Your task to perform on an android device: Clear the cart on amazon.com. Add "usb-c to usb-a" to the cart on amazon.com, then select checkout. Image 0: 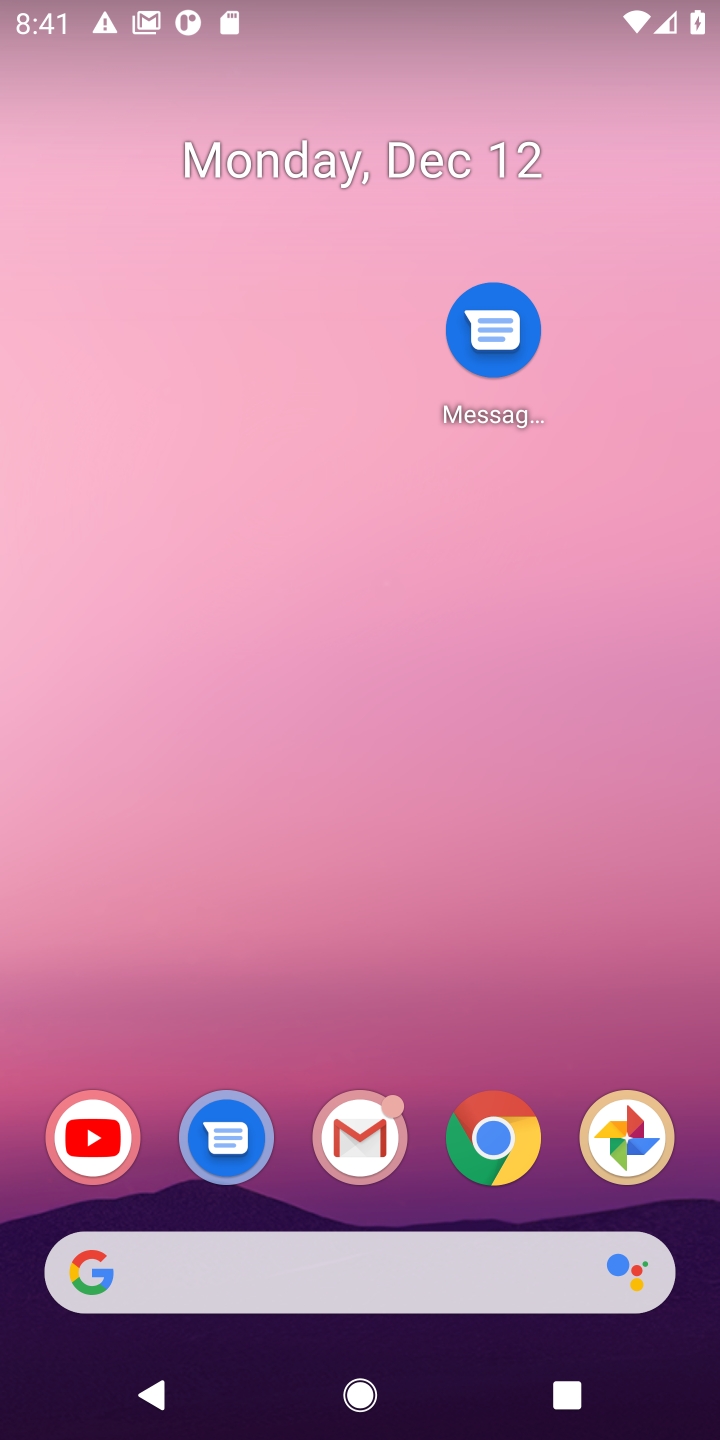
Step 0: drag from (216, 1259) to (363, 133)
Your task to perform on an android device: Clear the cart on amazon.com. Add "usb-c to usb-a" to the cart on amazon.com, then select checkout. Image 1: 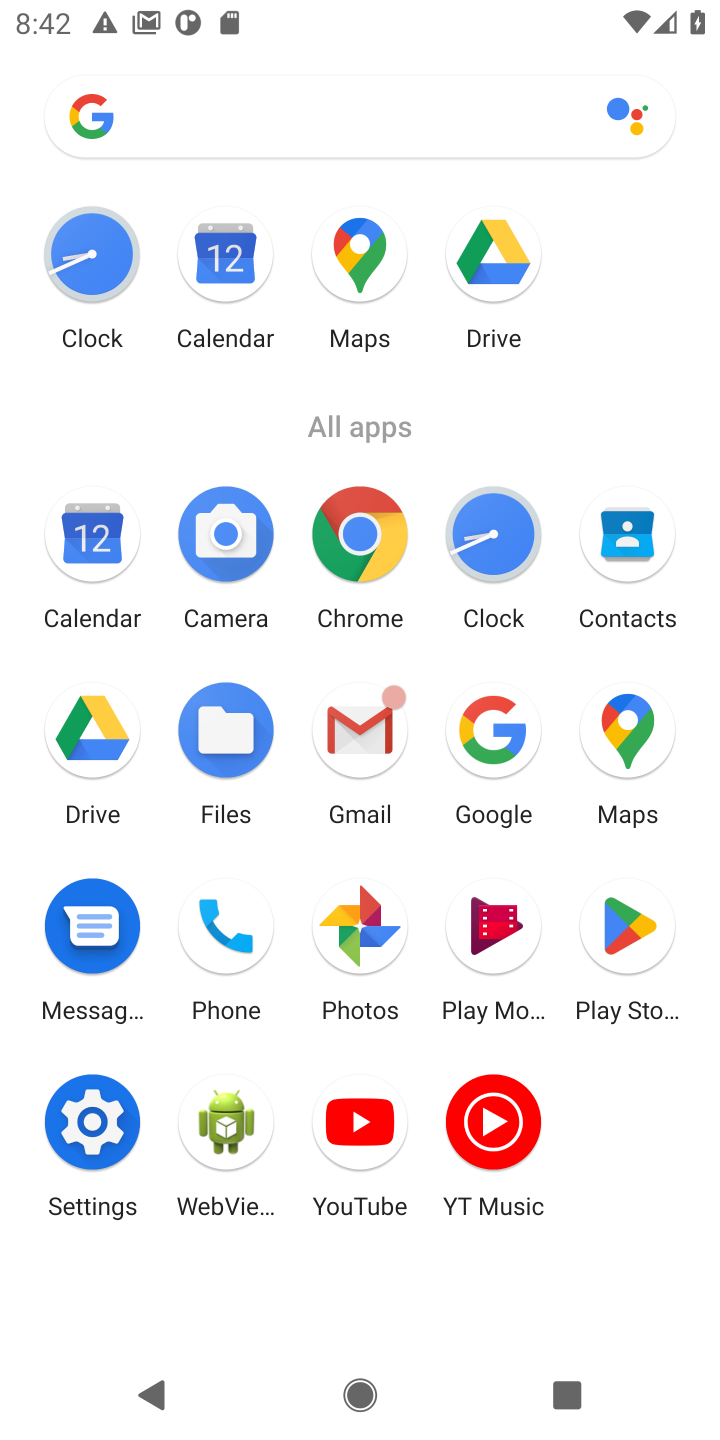
Step 1: click (508, 753)
Your task to perform on an android device: Clear the cart on amazon.com. Add "usb-c to usb-a" to the cart on amazon.com, then select checkout. Image 2: 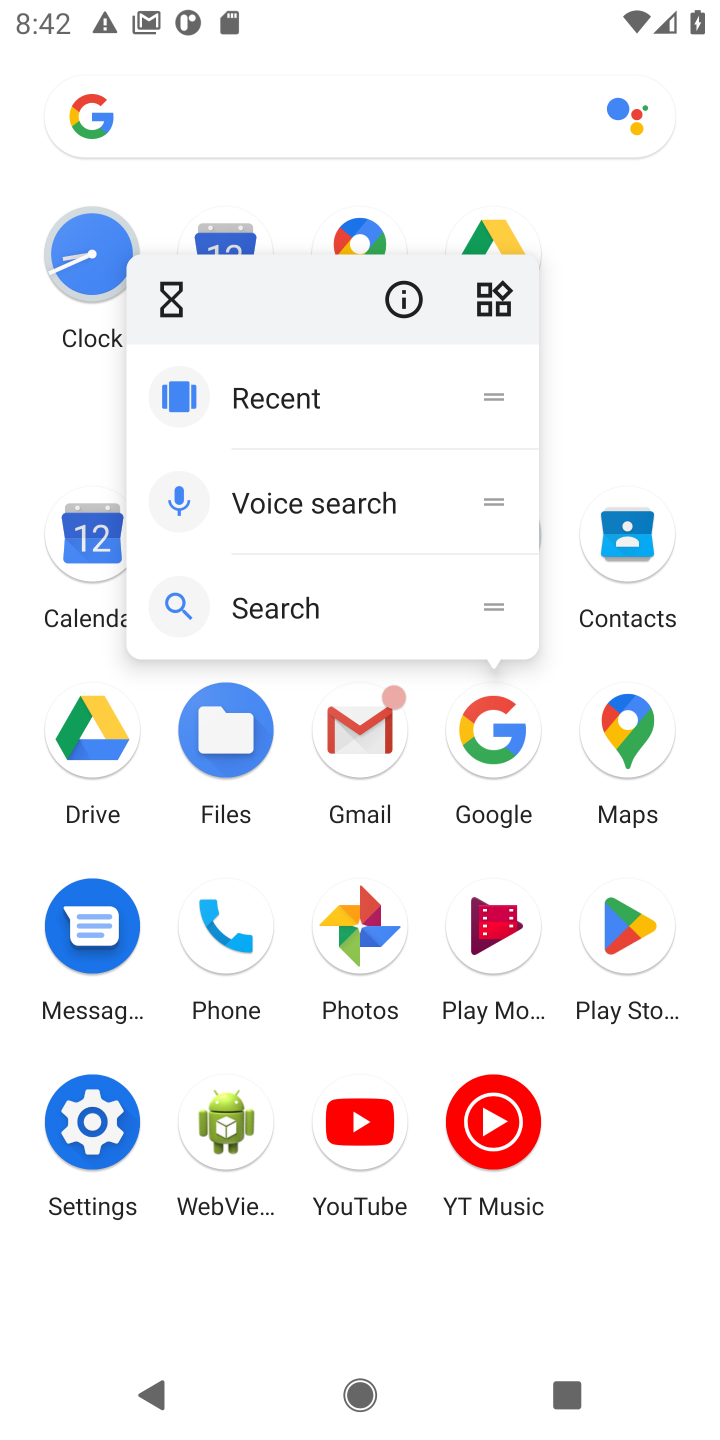
Step 2: click (499, 729)
Your task to perform on an android device: Clear the cart on amazon.com. Add "usb-c to usb-a" to the cart on amazon.com, then select checkout. Image 3: 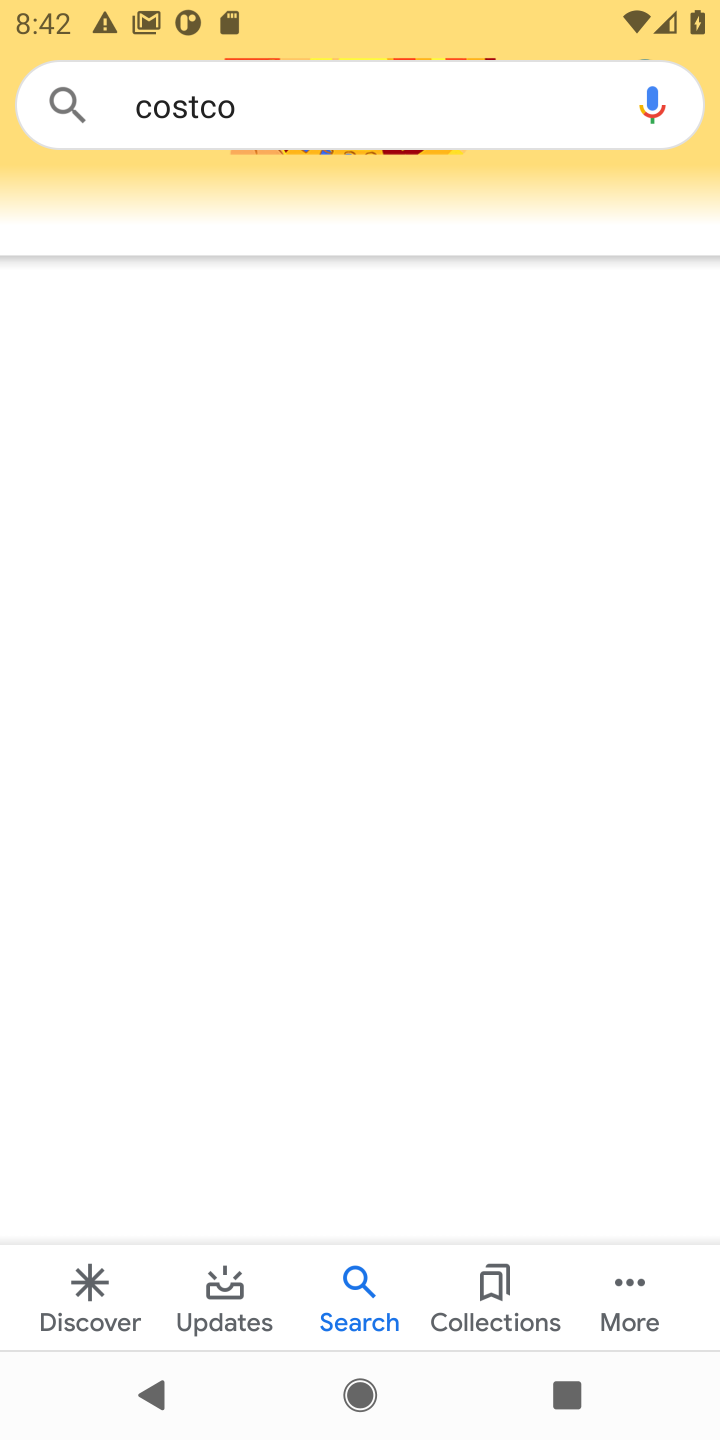
Step 3: click (265, 101)
Your task to perform on an android device: Clear the cart on amazon.com. Add "usb-c to usb-a" to the cart on amazon.com, then select checkout. Image 4: 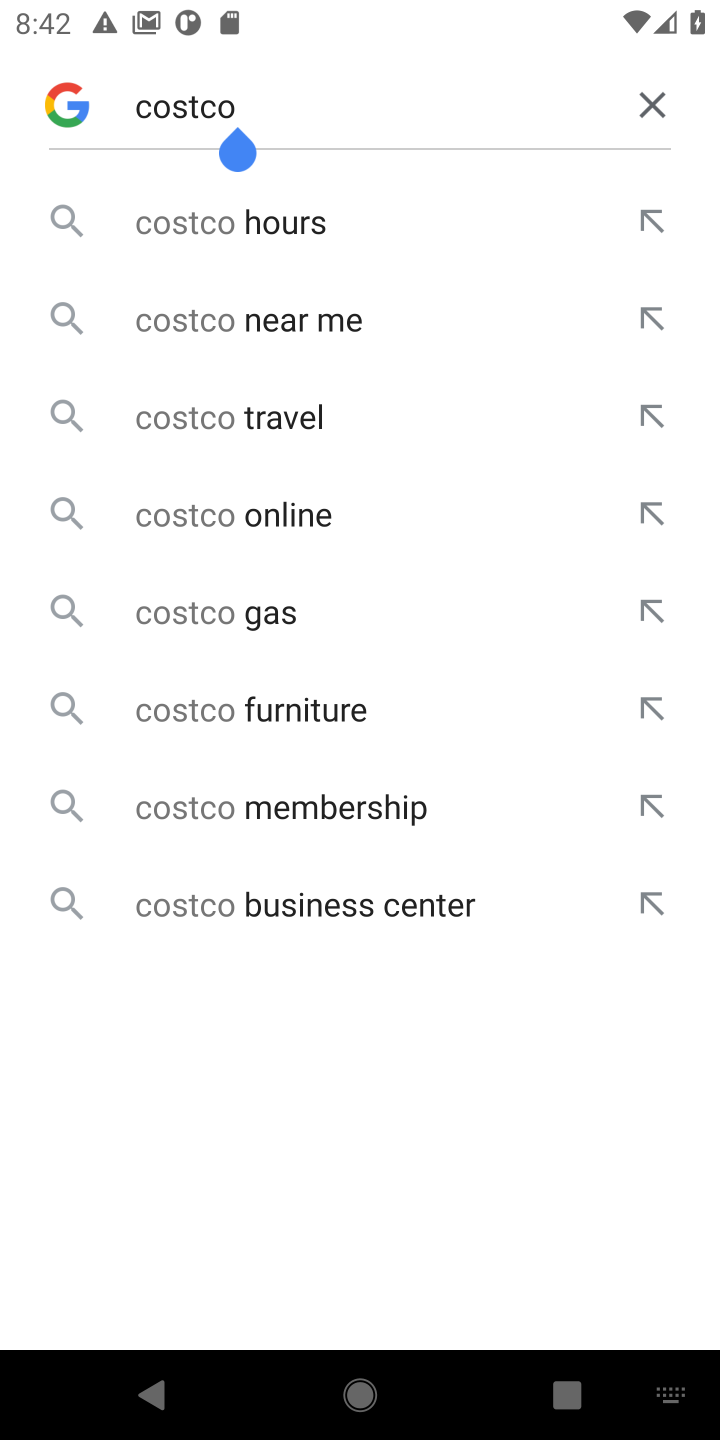
Step 4: click (654, 96)
Your task to perform on an android device: Clear the cart on amazon.com. Add "usb-c to usb-a" to the cart on amazon.com, then select checkout. Image 5: 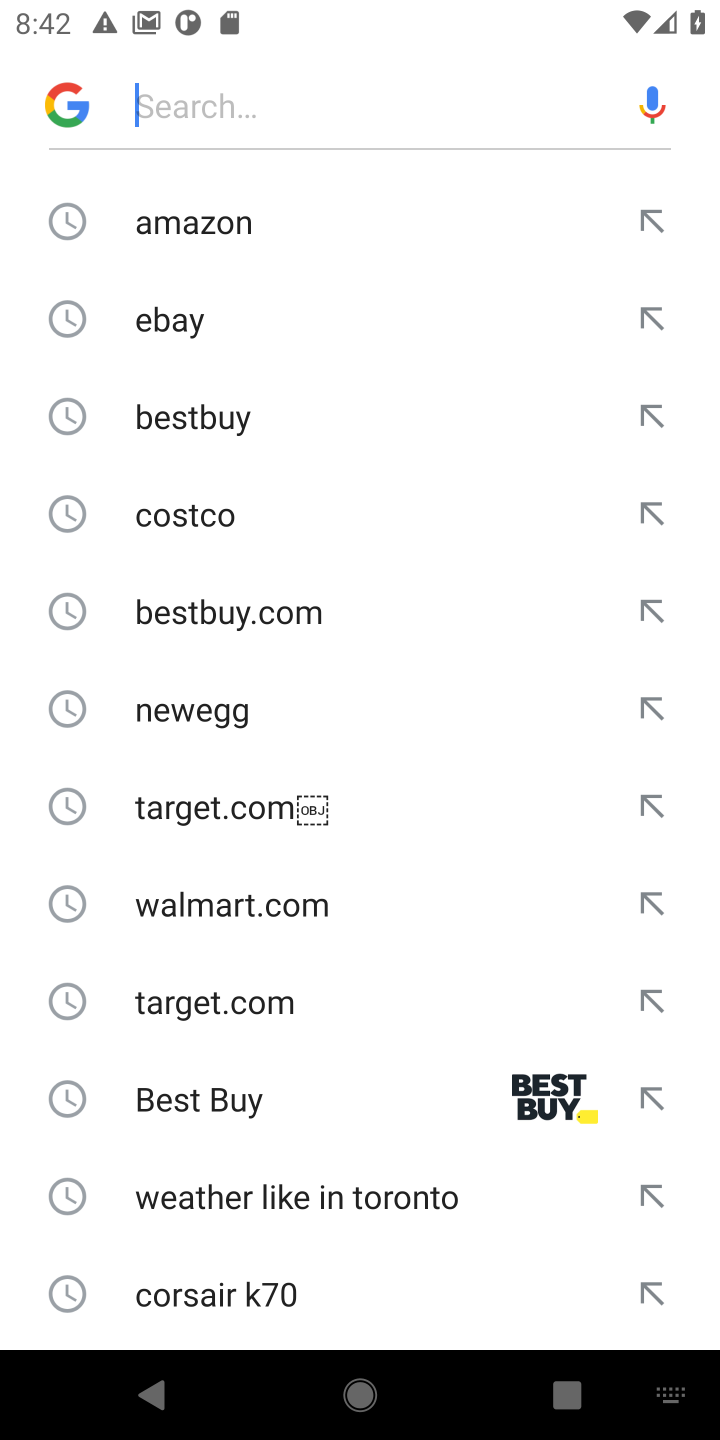
Step 5: click (173, 210)
Your task to perform on an android device: Clear the cart on amazon.com. Add "usb-c to usb-a" to the cart on amazon.com, then select checkout. Image 6: 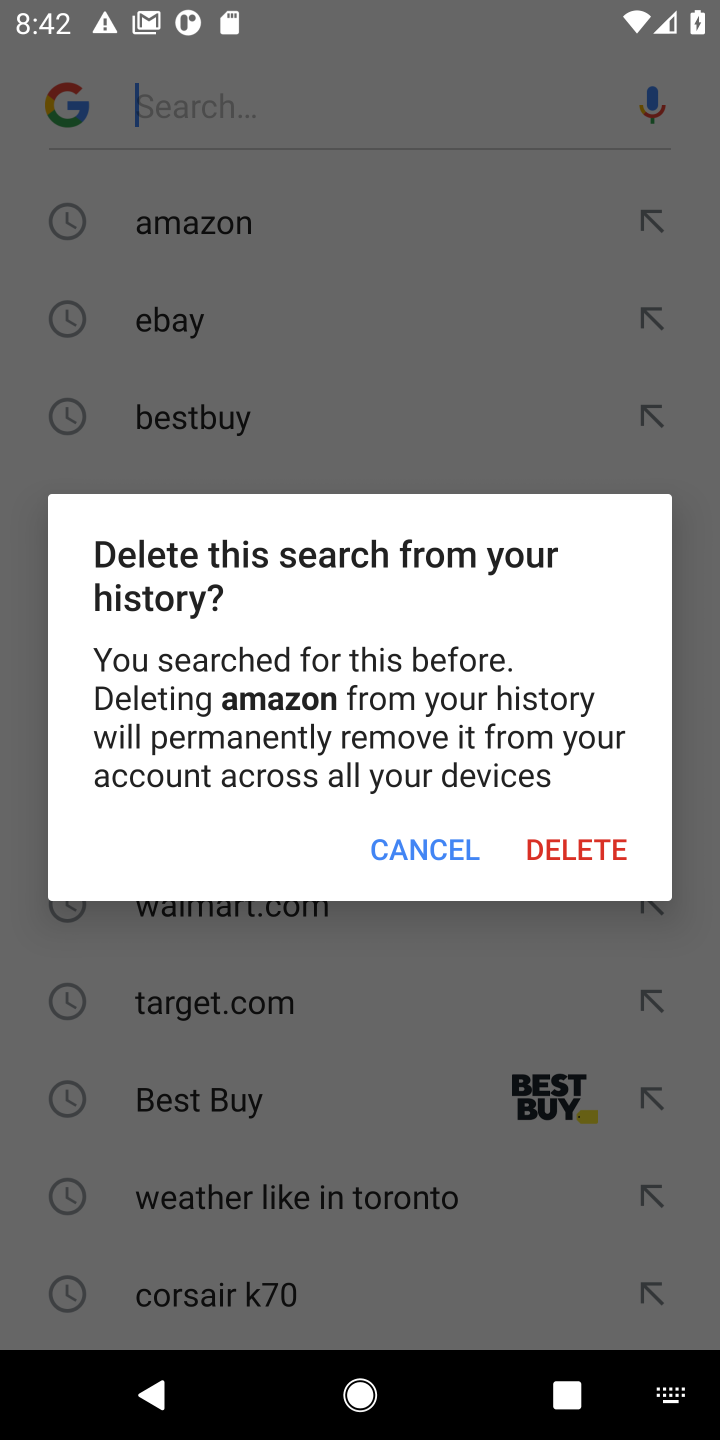
Step 6: click (445, 839)
Your task to perform on an android device: Clear the cart on amazon.com. Add "usb-c to usb-a" to the cart on amazon.com, then select checkout. Image 7: 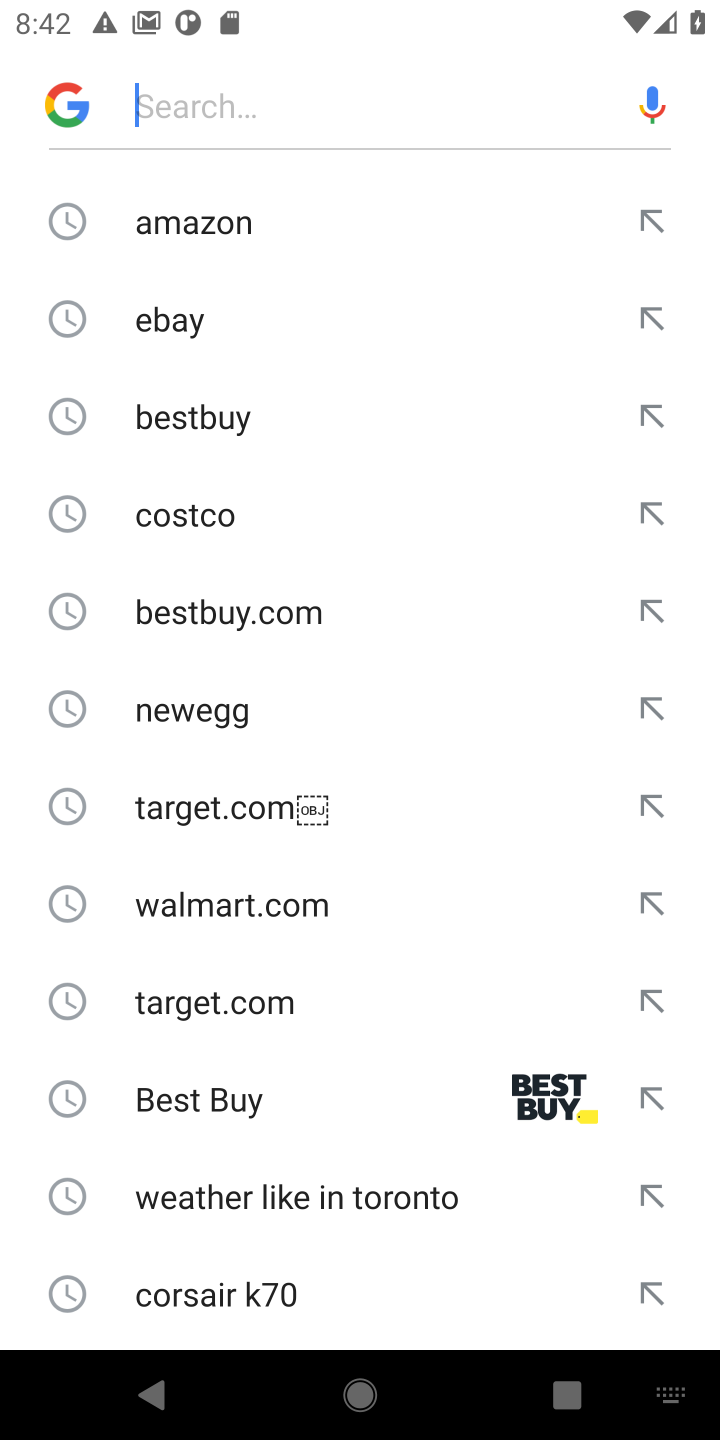
Step 7: click (225, 217)
Your task to perform on an android device: Clear the cart on amazon.com. Add "usb-c to usb-a" to the cart on amazon.com, then select checkout. Image 8: 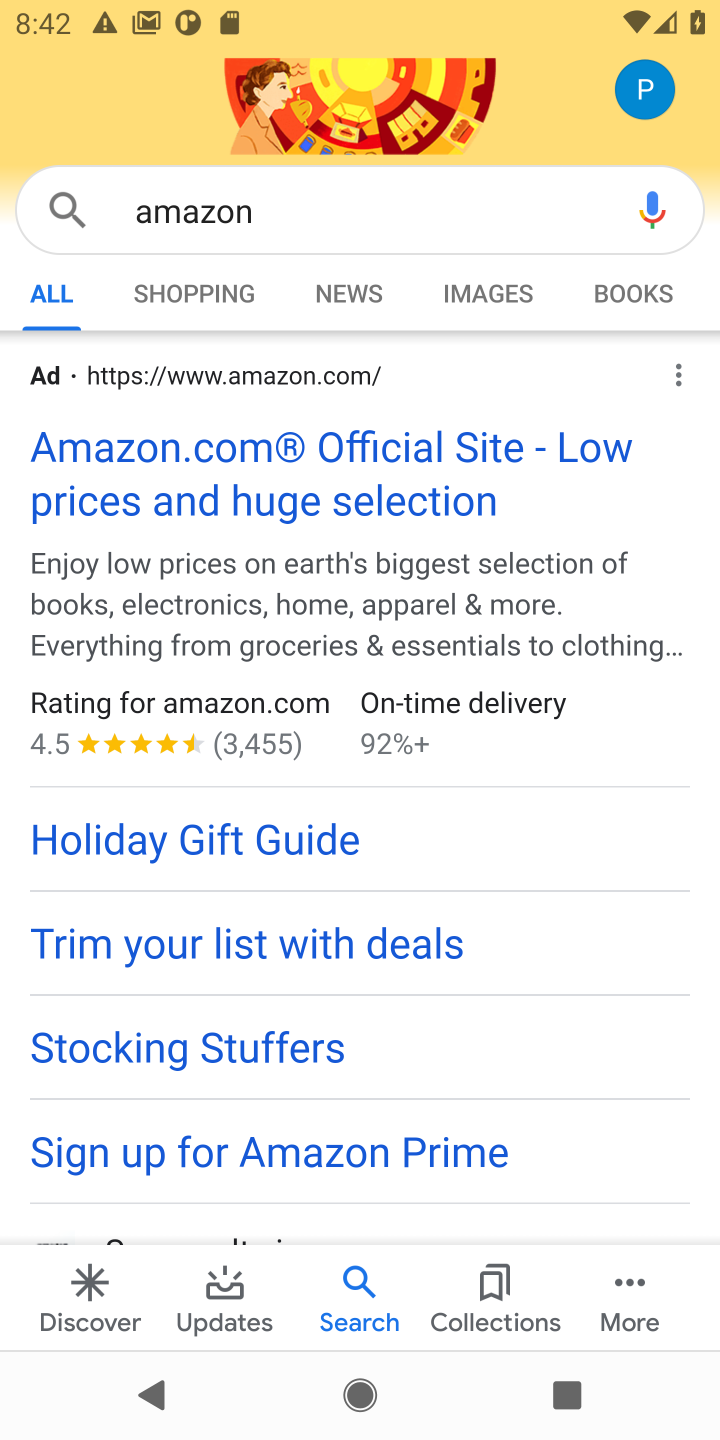
Step 8: click (240, 478)
Your task to perform on an android device: Clear the cart on amazon.com. Add "usb-c to usb-a" to the cart on amazon.com, then select checkout. Image 9: 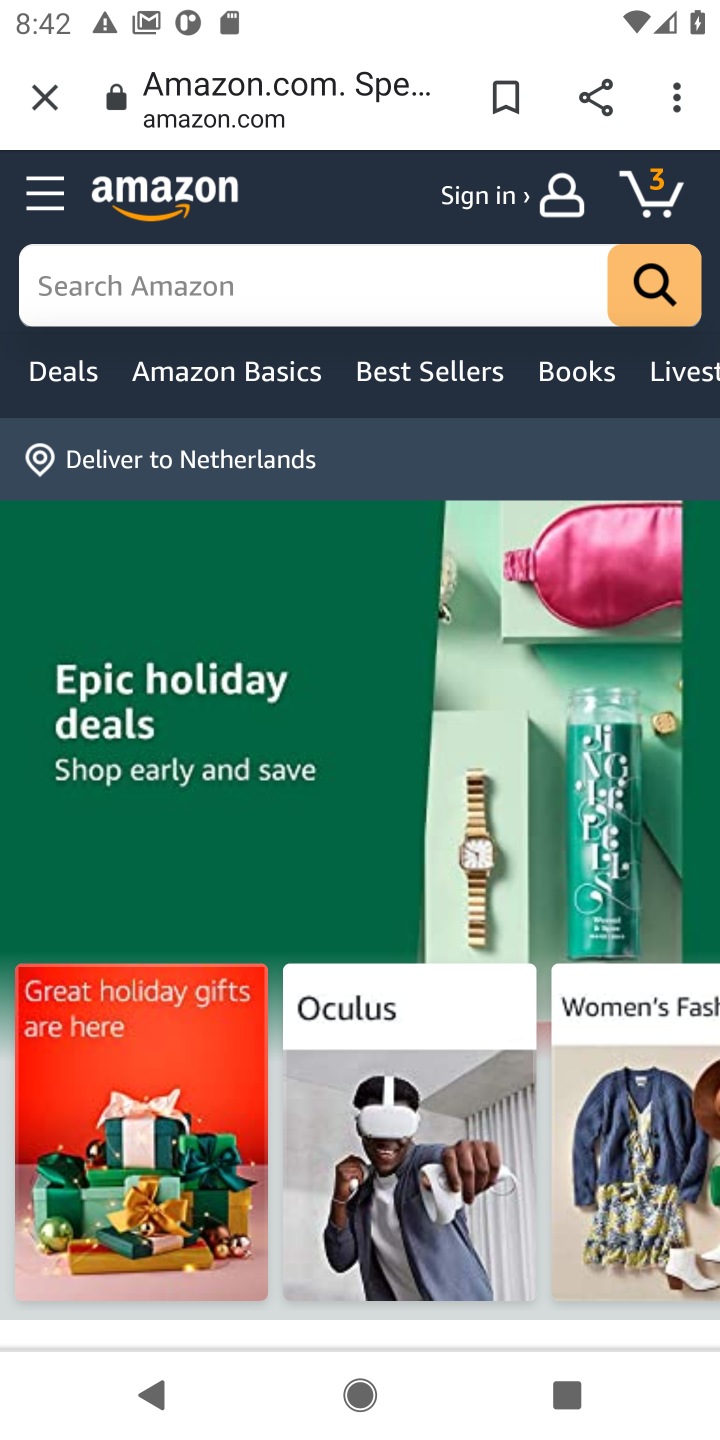
Step 9: click (179, 290)
Your task to perform on an android device: Clear the cart on amazon.com. Add "usb-c to usb-a" to the cart on amazon.com, then select checkout. Image 10: 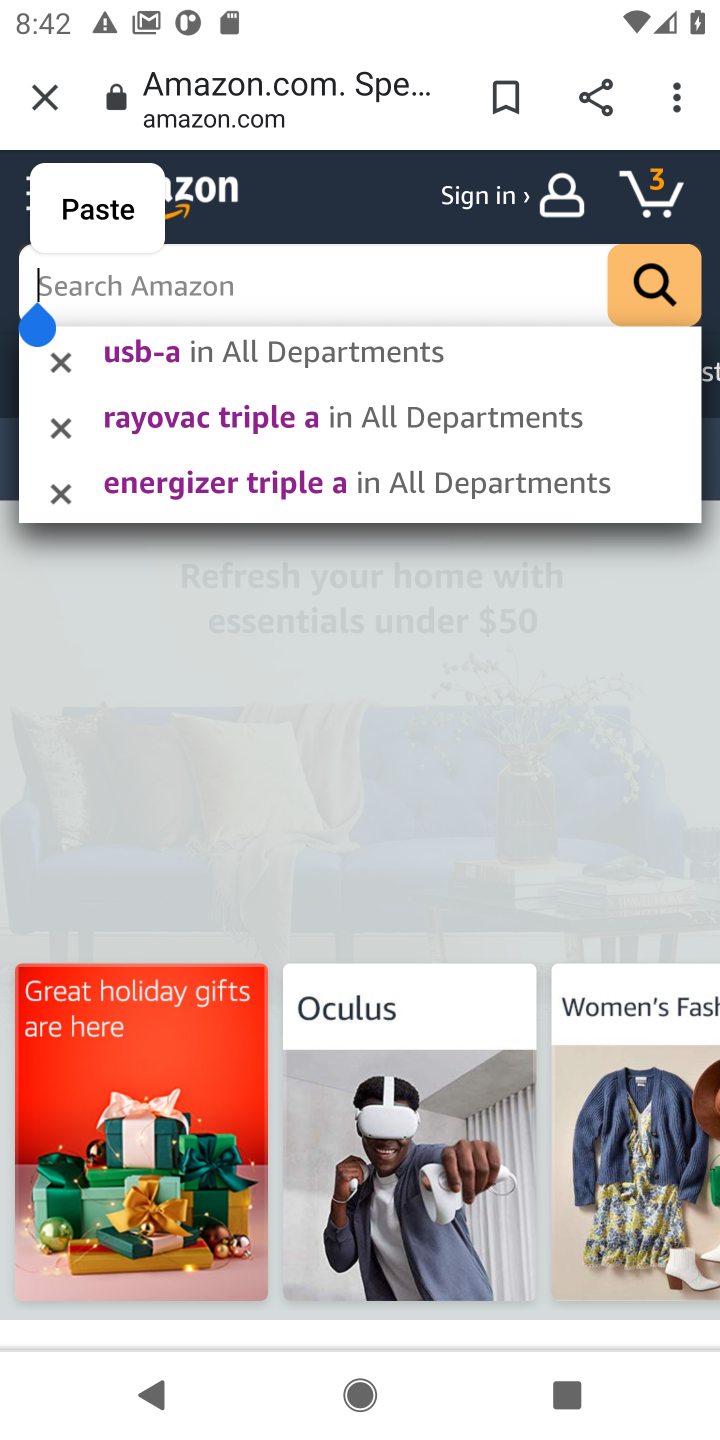
Step 10: click (678, 178)
Your task to perform on an android device: Clear the cart on amazon.com. Add "usb-c to usb-a" to the cart on amazon.com, then select checkout. Image 11: 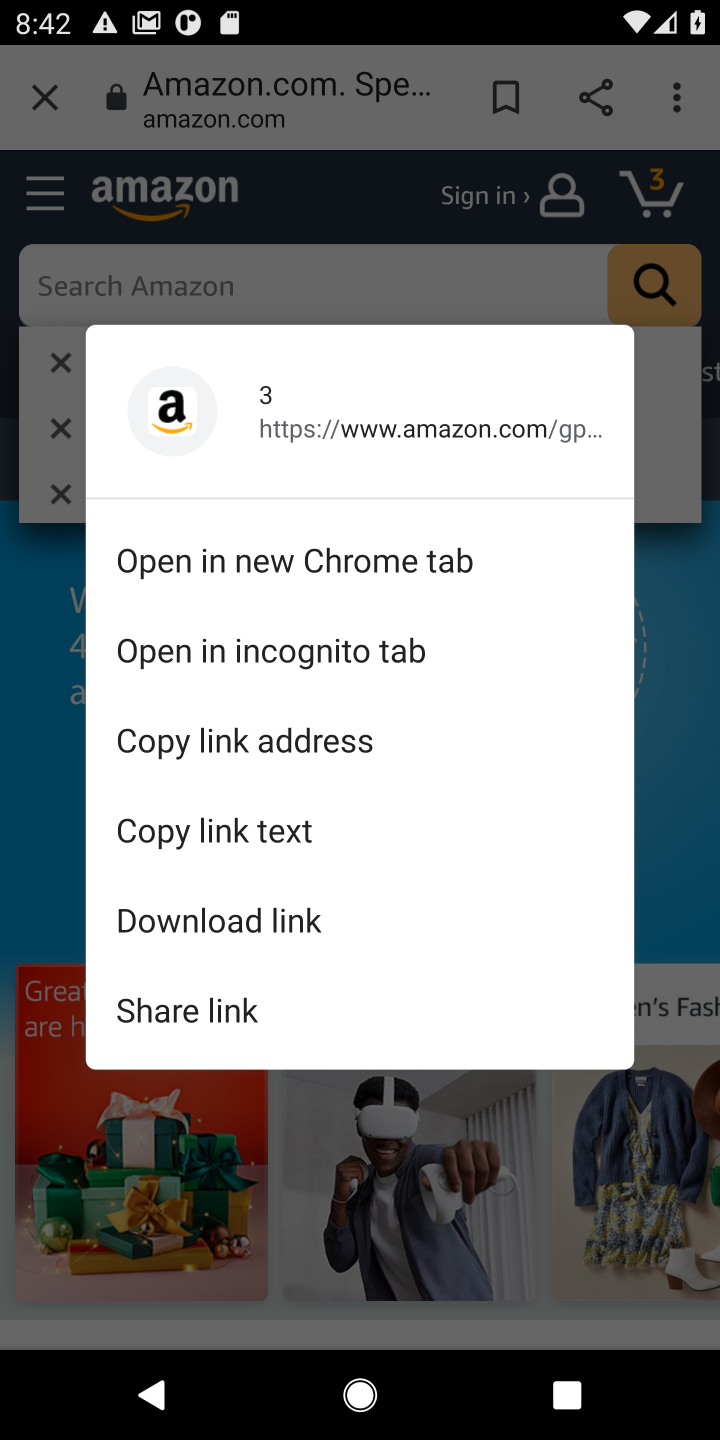
Step 11: click (35, 625)
Your task to perform on an android device: Clear the cart on amazon.com. Add "usb-c to usb-a" to the cart on amazon.com, then select checkout. Image 12: 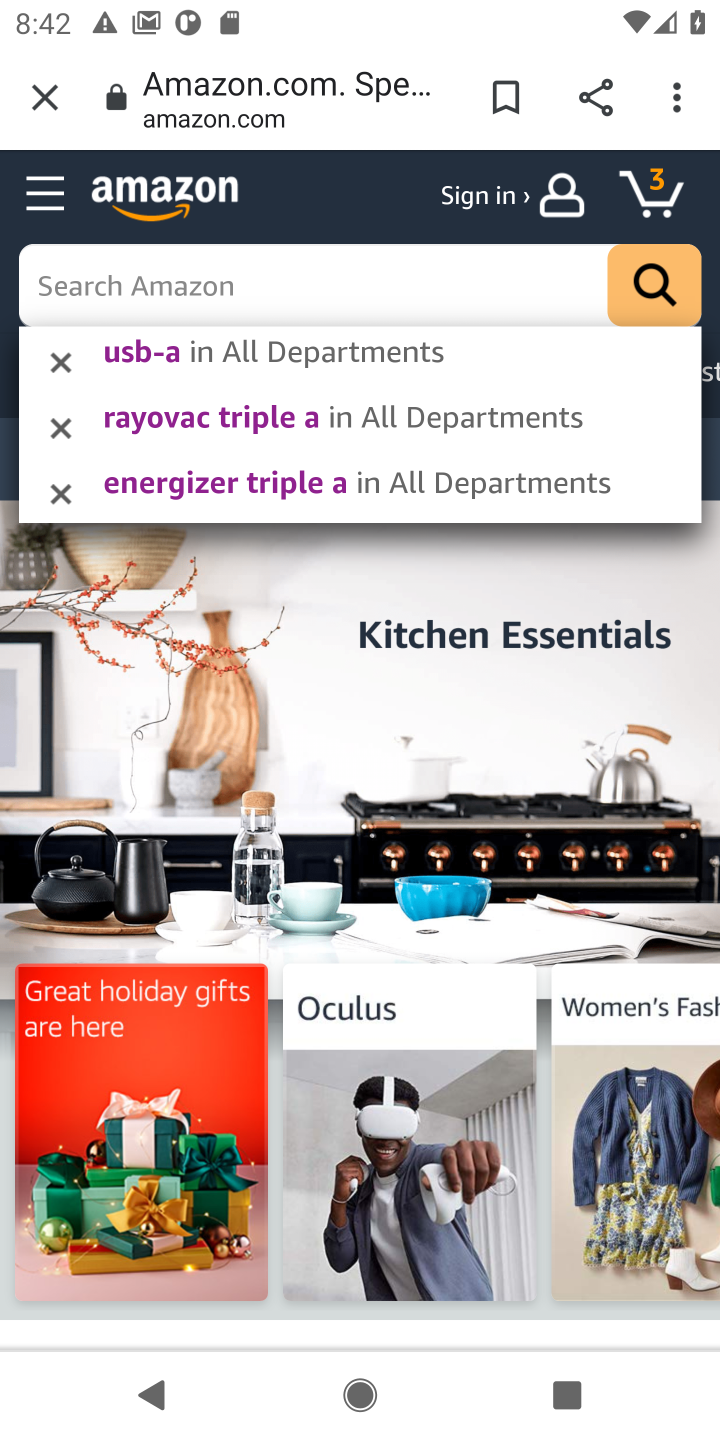
Step 12: click (667, 188)
Your task to perform on an android device: Clear the cart on amazon.com. Add "usb-c to usb-a" to the cart on amazon.com, then select checkout. Image 13: 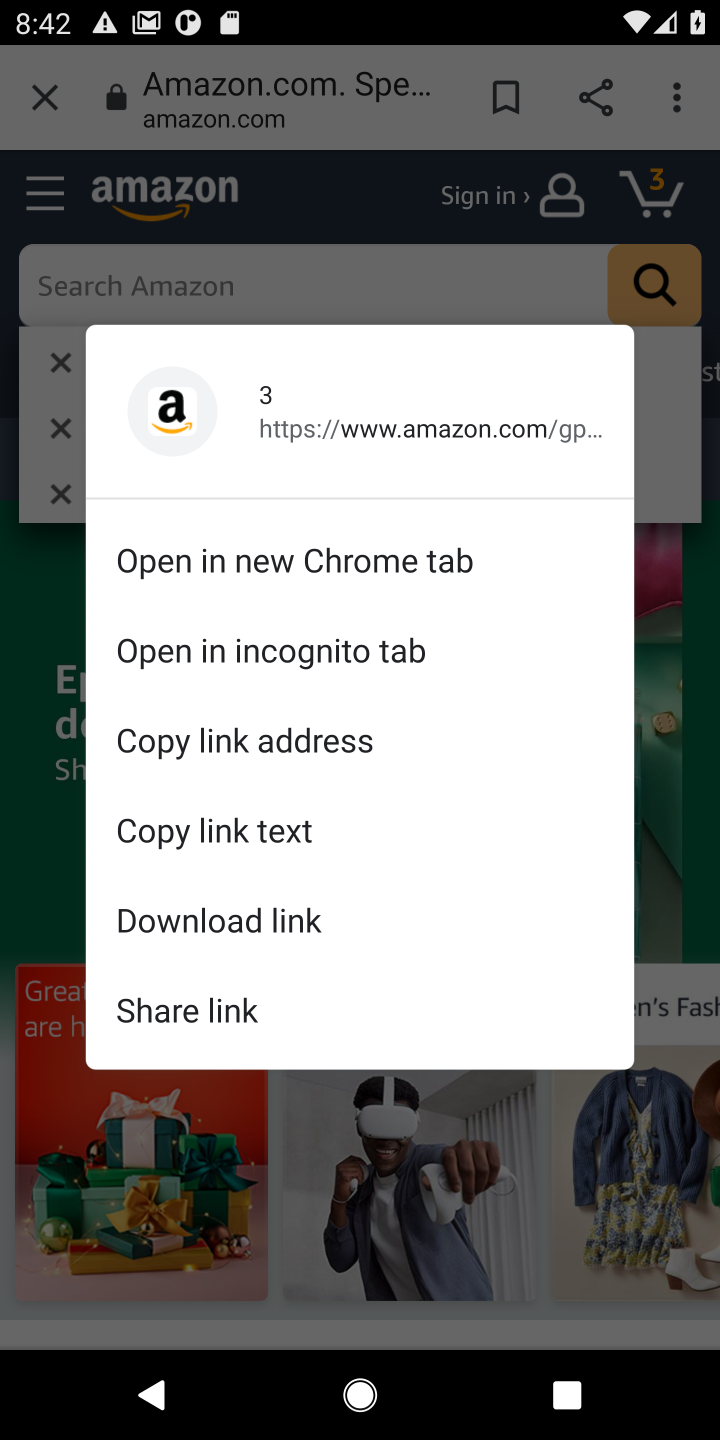
Step 13: click (20, 631)
Your task to perform on an android device: Clear the cart on amazon.com. Add "usb-c to usb-a" to the cart on amazon.com, then select checkout. Image 14: 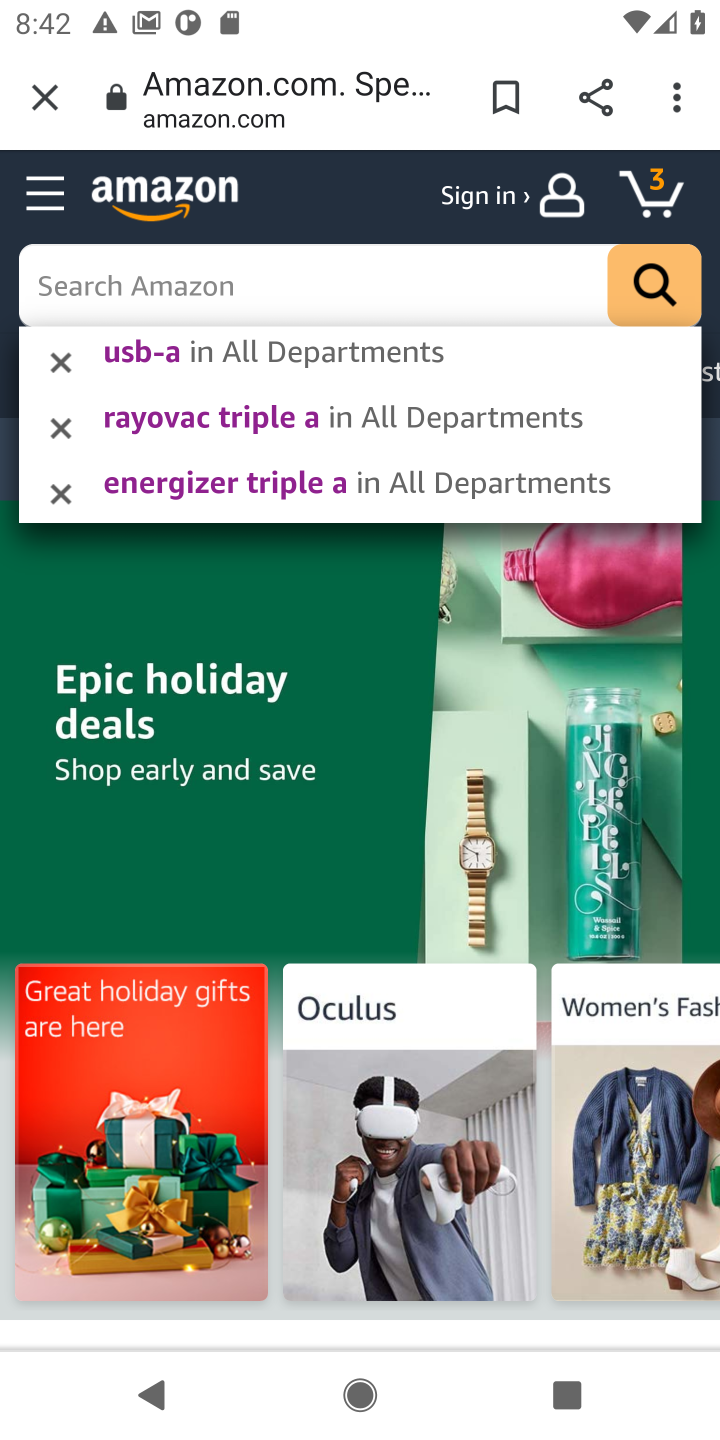
Step 14: click (640, 193)
Your task to perform on an android device: Clear the cart on amazon.com. Add "usb-c to usb-a" to the cart on amazon.com, then select checkout. Image 15: 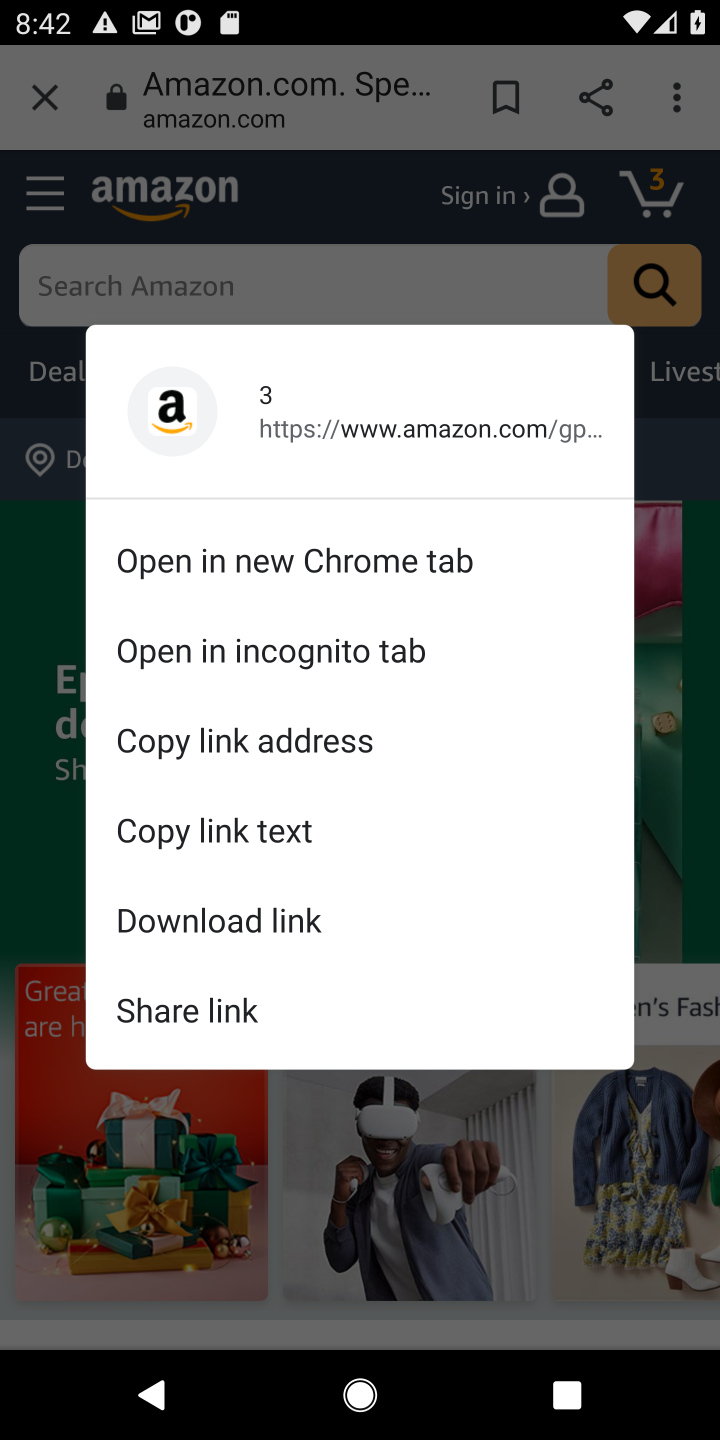
Step 15: click (698, 644)
Your task to perform on an android device: Clear the cart on amazon.com. Add "usb-c to usb-a" to the cart on amazon.com, then select checkout. Image 16: 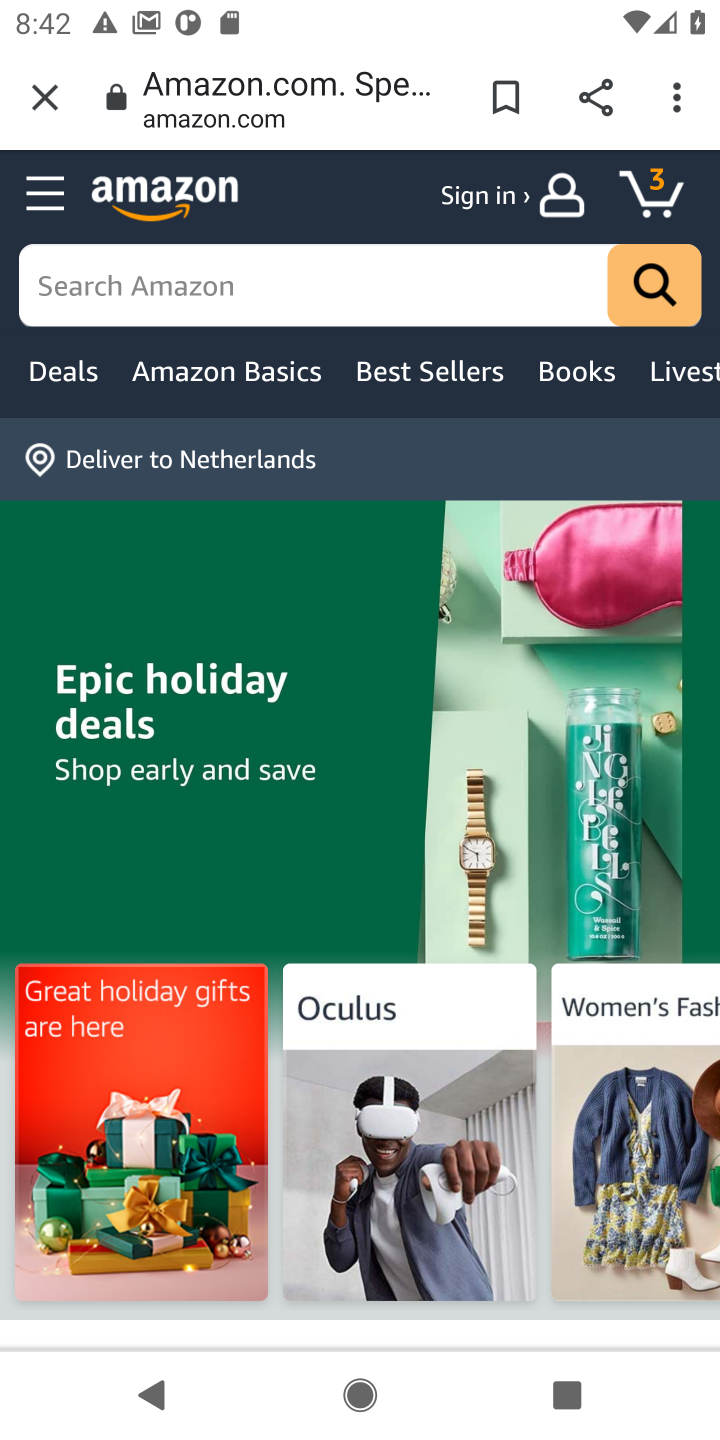
Step 16: click (662, 191)
Your task to perform on an android device: Clear the cart on amazon.com. Add "usb-c to usb-a" to the cart on amazon.com, then select checkout. Image 17: 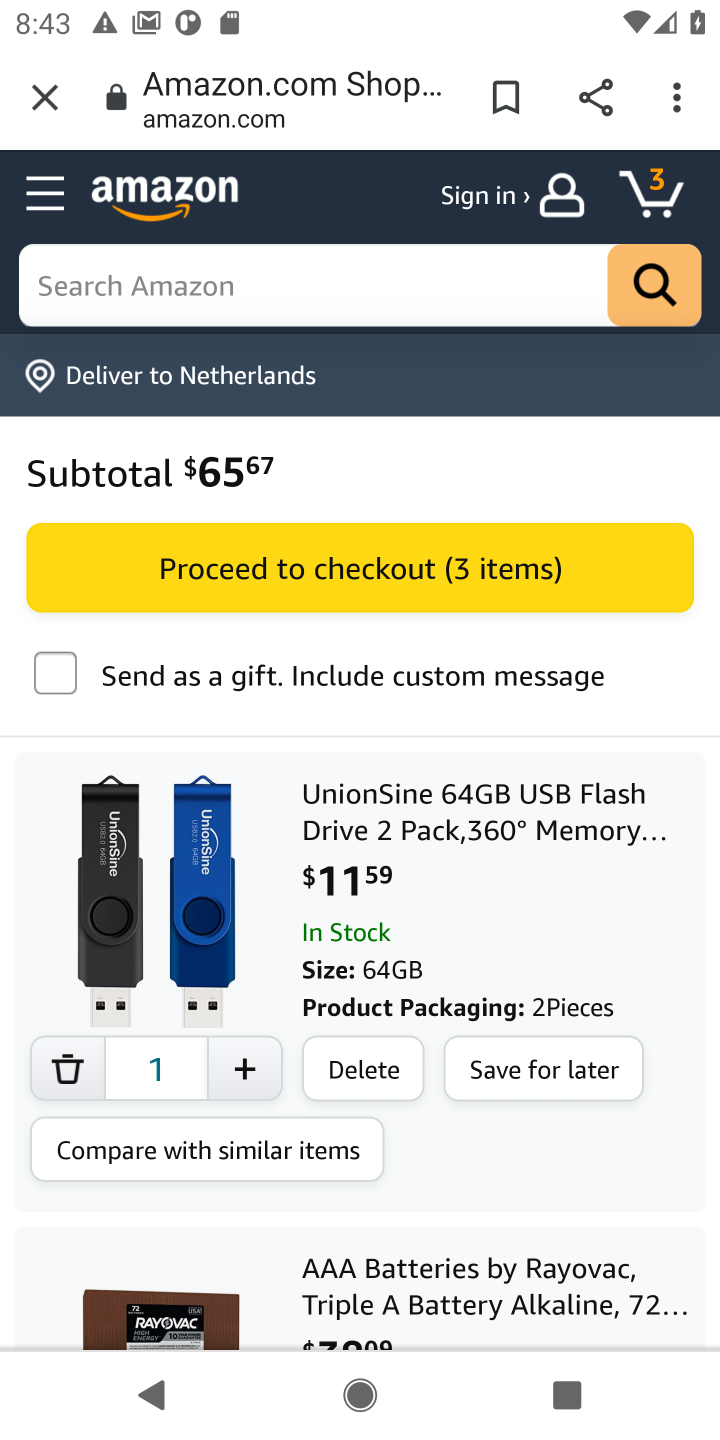
Step 17: click (367, 1066)
Your task to perform on an android device: Clear the cart on amazon.com. Add "usb-c to usb-a" to the cart on amazon.com, then select checkout. Image 18: 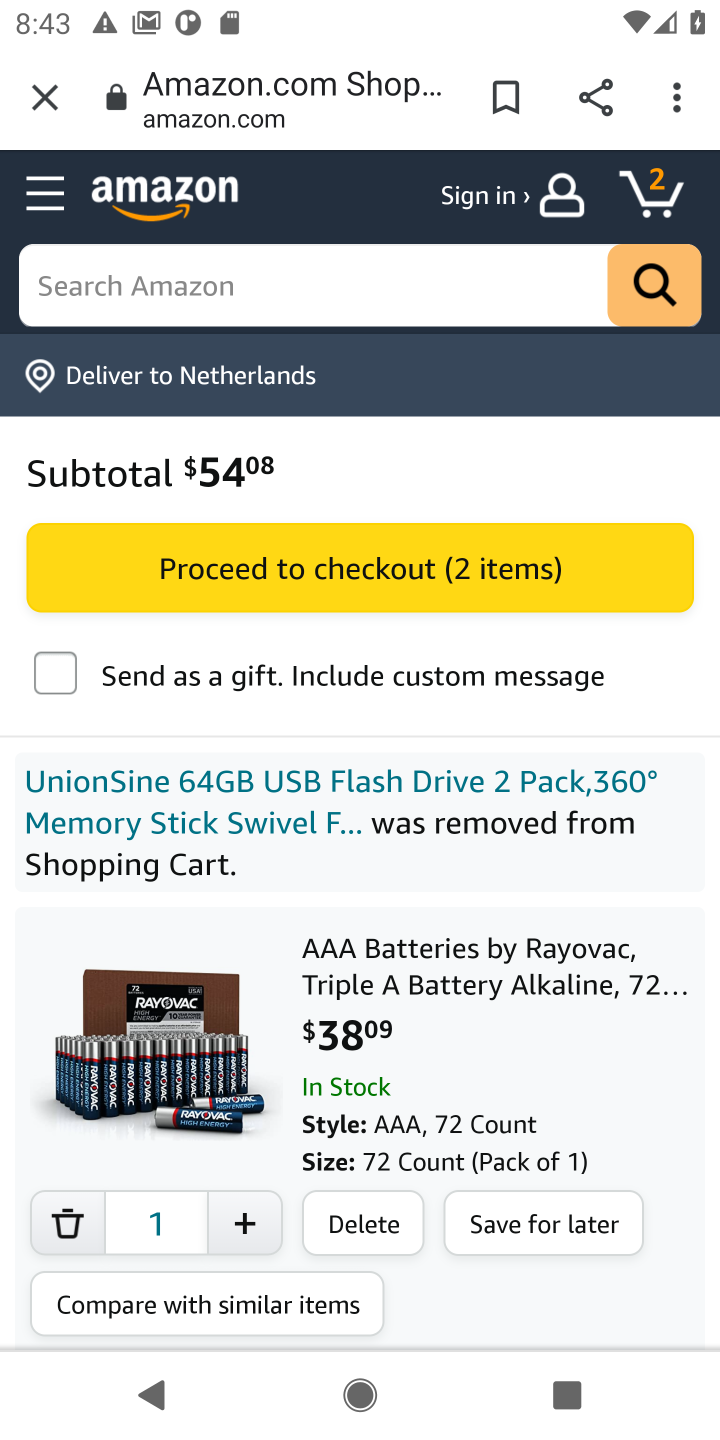
Step 18: click (367, 1221)
Your task to perform on an android device: Clear the cart on amazon.com. Add "usb-c to usb-a" to the cart on amazon.com, then select checkout. Image 19: 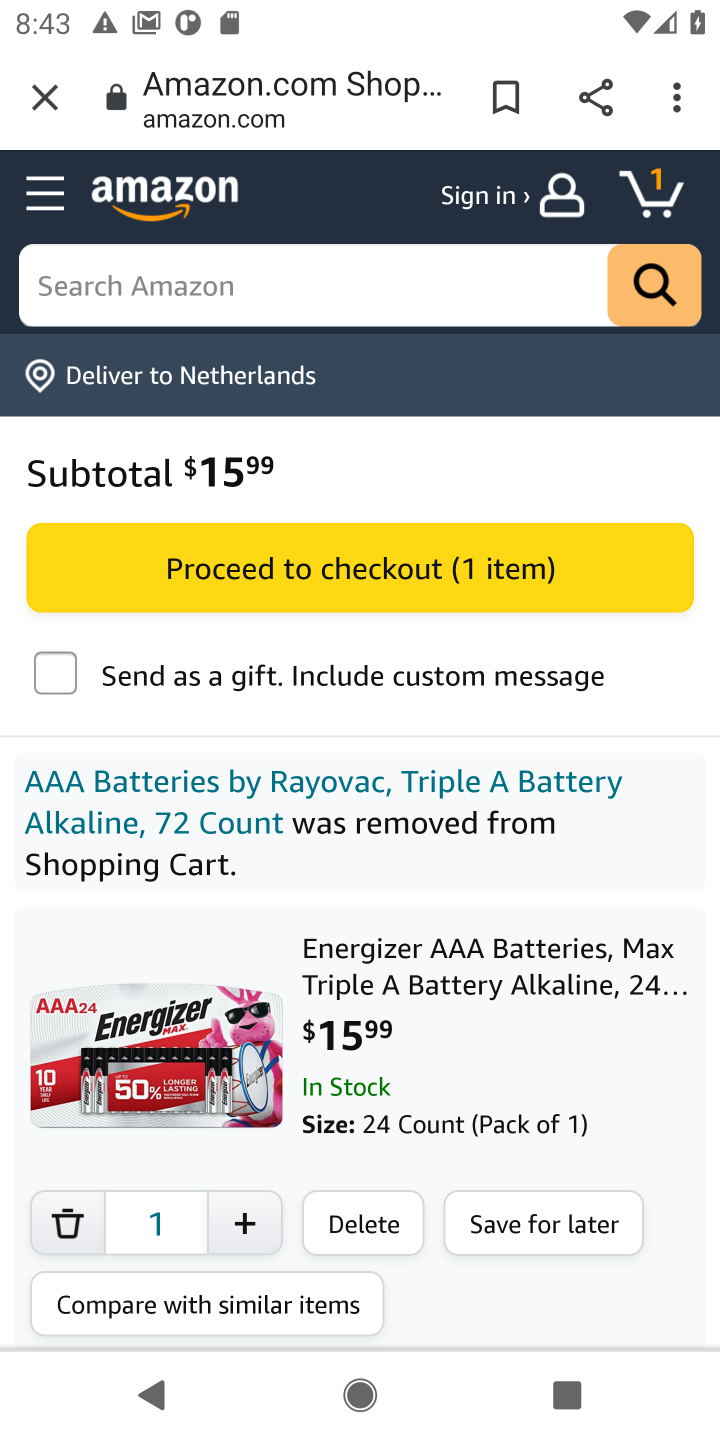
Step 19: click (365, 1230)
Your task to perform on an android device: Clear the cart on amazon.com. Add "usb-c to usb-a" to the cart on amazon.com, then select checkout. Image 20: 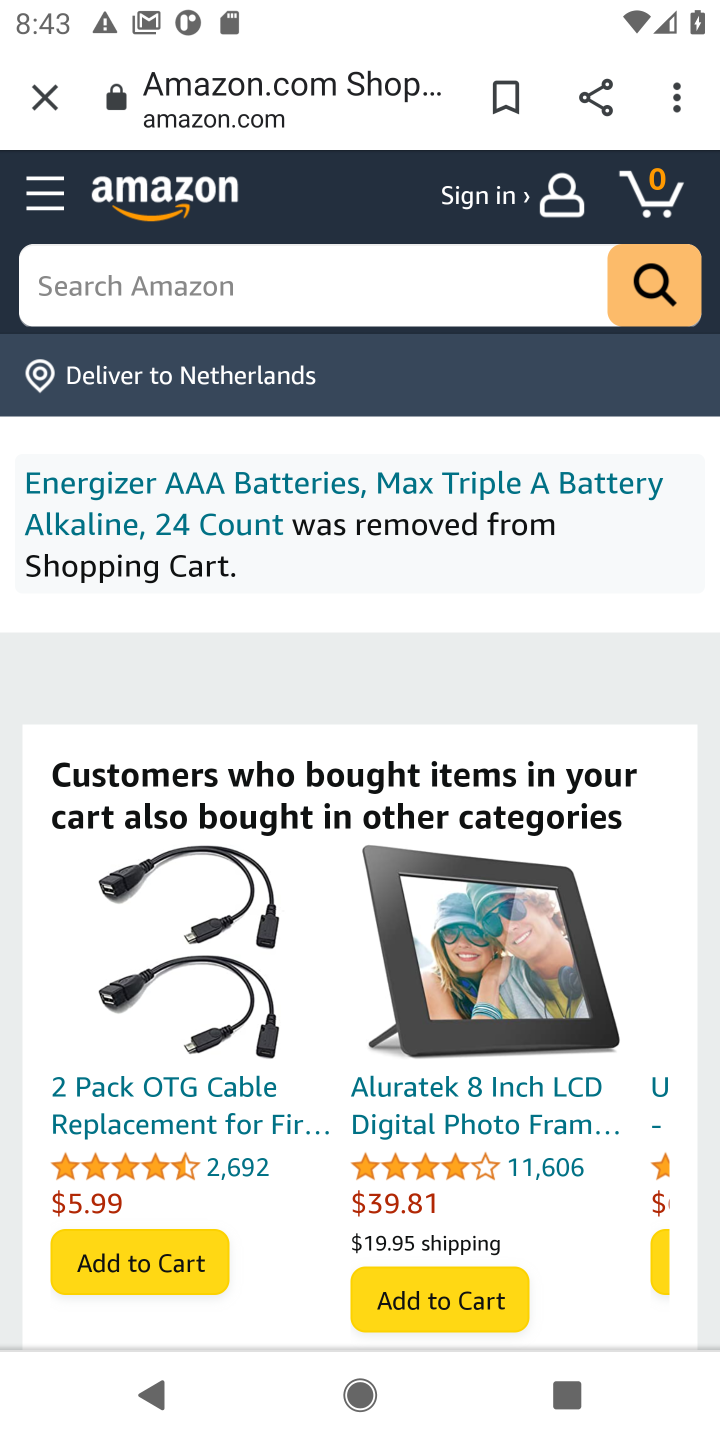
Step 20: click (250, 277)
Your task to perform on an android device: Clear the cart on amazon.com. Add "usb-c to usb-a" to the cart on amazon.com, then select checkout. Image 21: 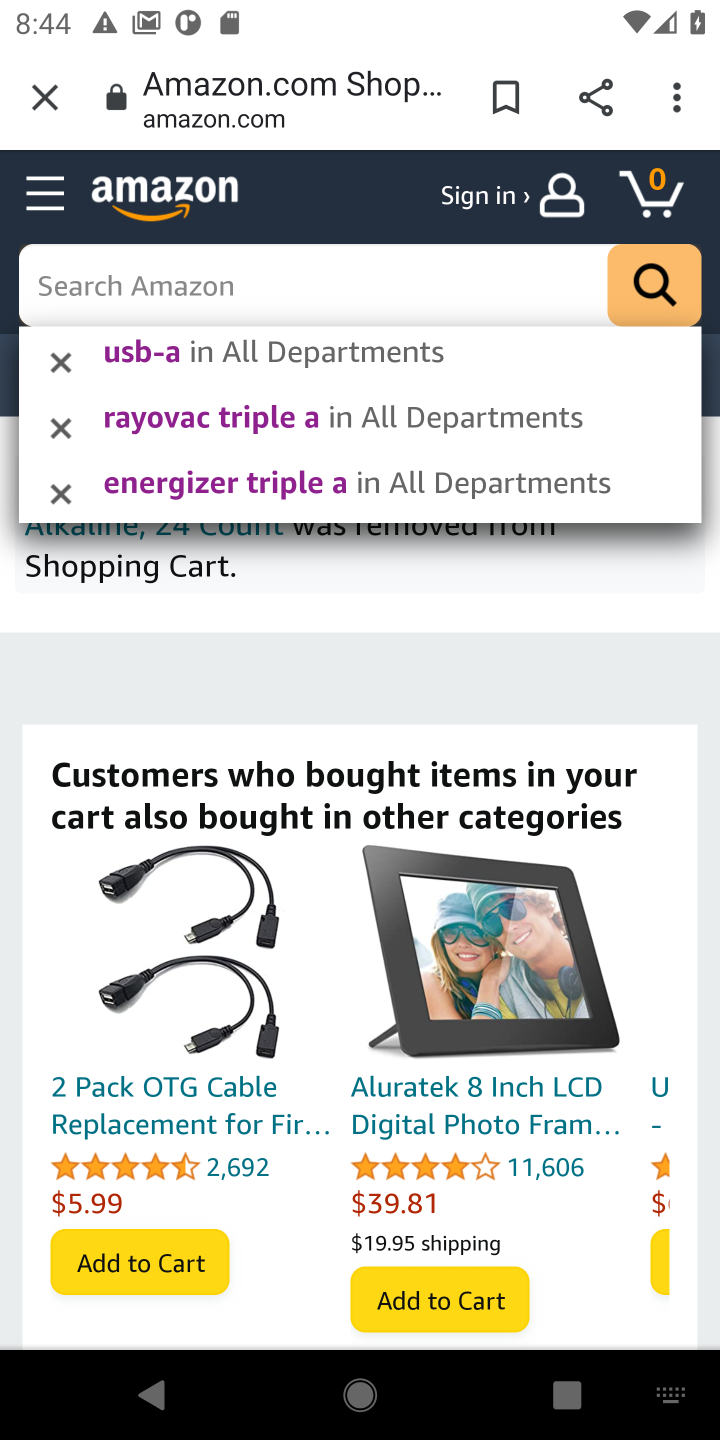
Step 21: type "usb-c to usb-a"
Your task to perform on an android device: Clear the cart on amazon.com. Add "usb-c to usb-a" to the cart on amazon.com, then select checkout. Image 22: 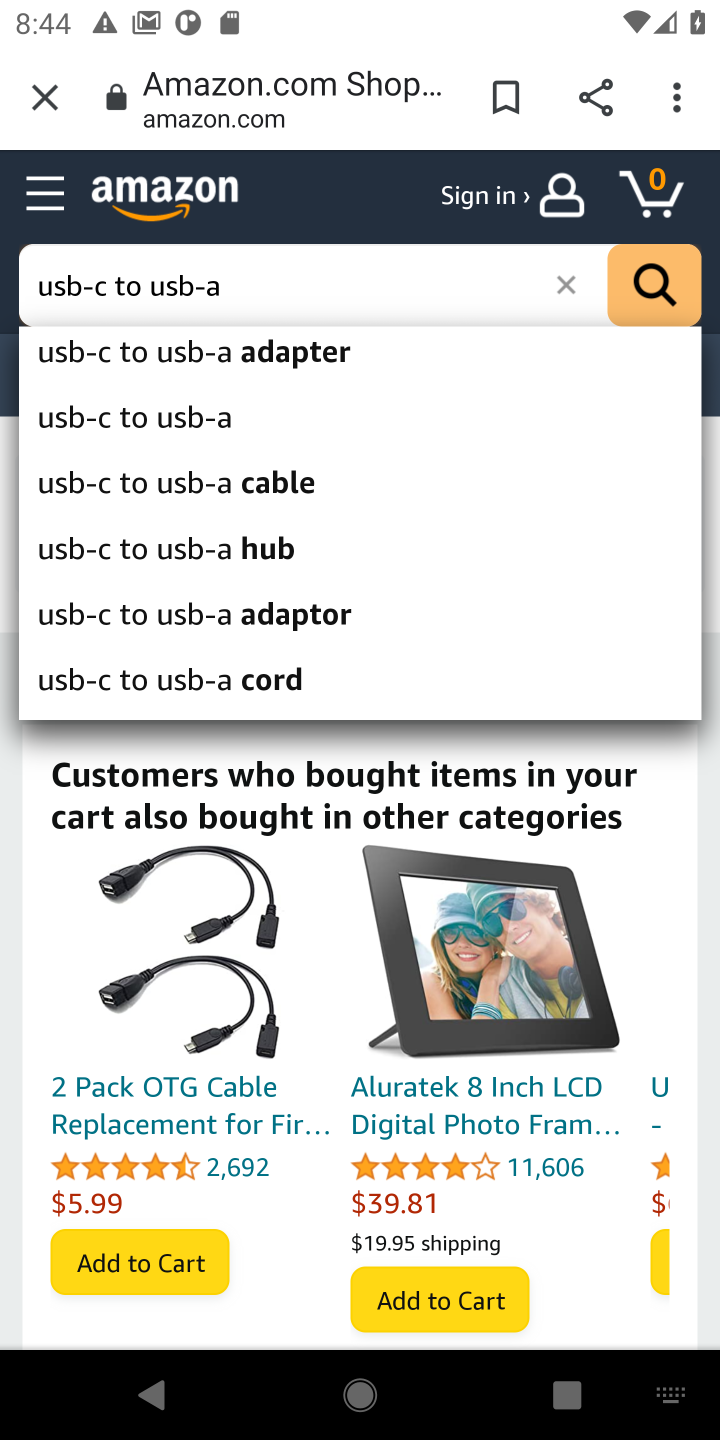
Step 22: click (189, 341)
Your task to perform on an android device: Clear the cart on amazon.com. Add "usb-c to usb-a" to the cart on amazon.com, then select checkout. Image 23: 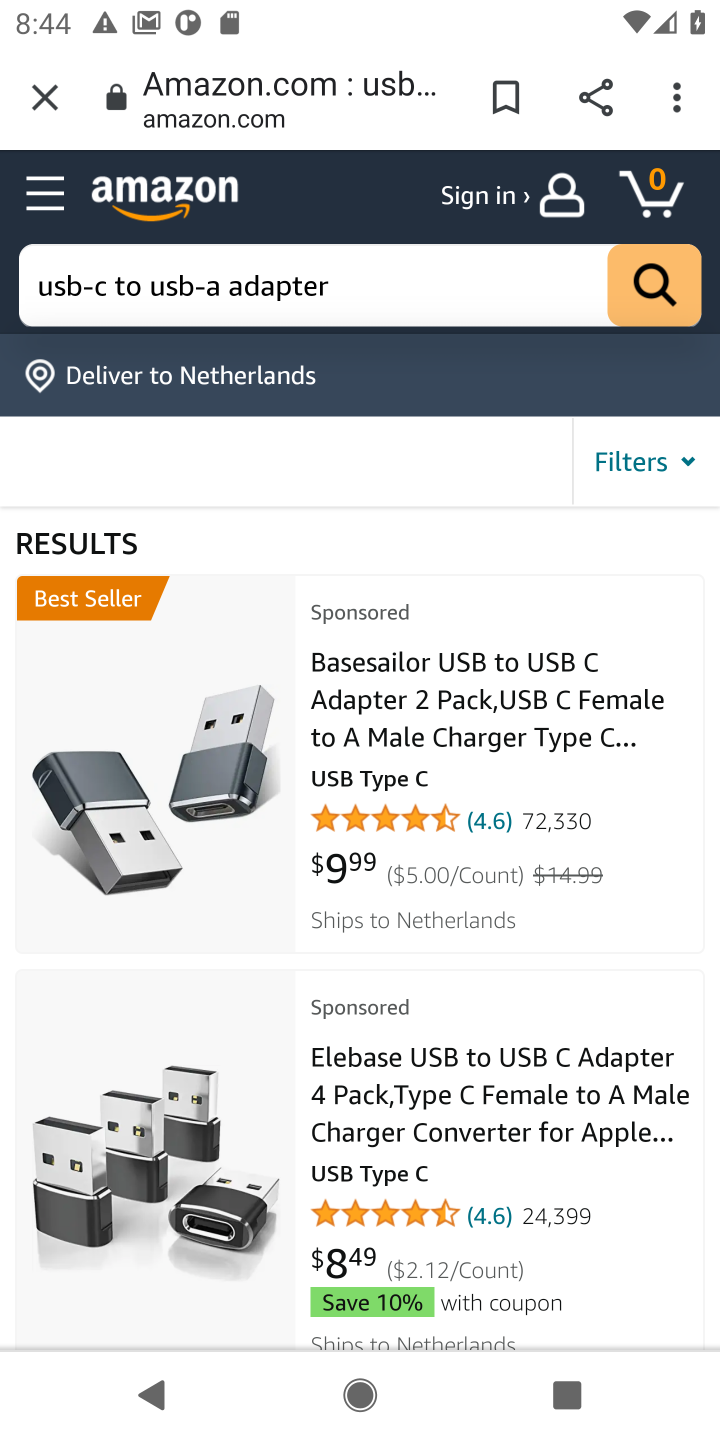
Step 23: drag from (467, 945) to (451, 510)
Your task to perform on an android device: Clear the cart on amazon.com. Add "usb-c to usb-a" to the cart on amazon.com, then select checkout. Image 24: 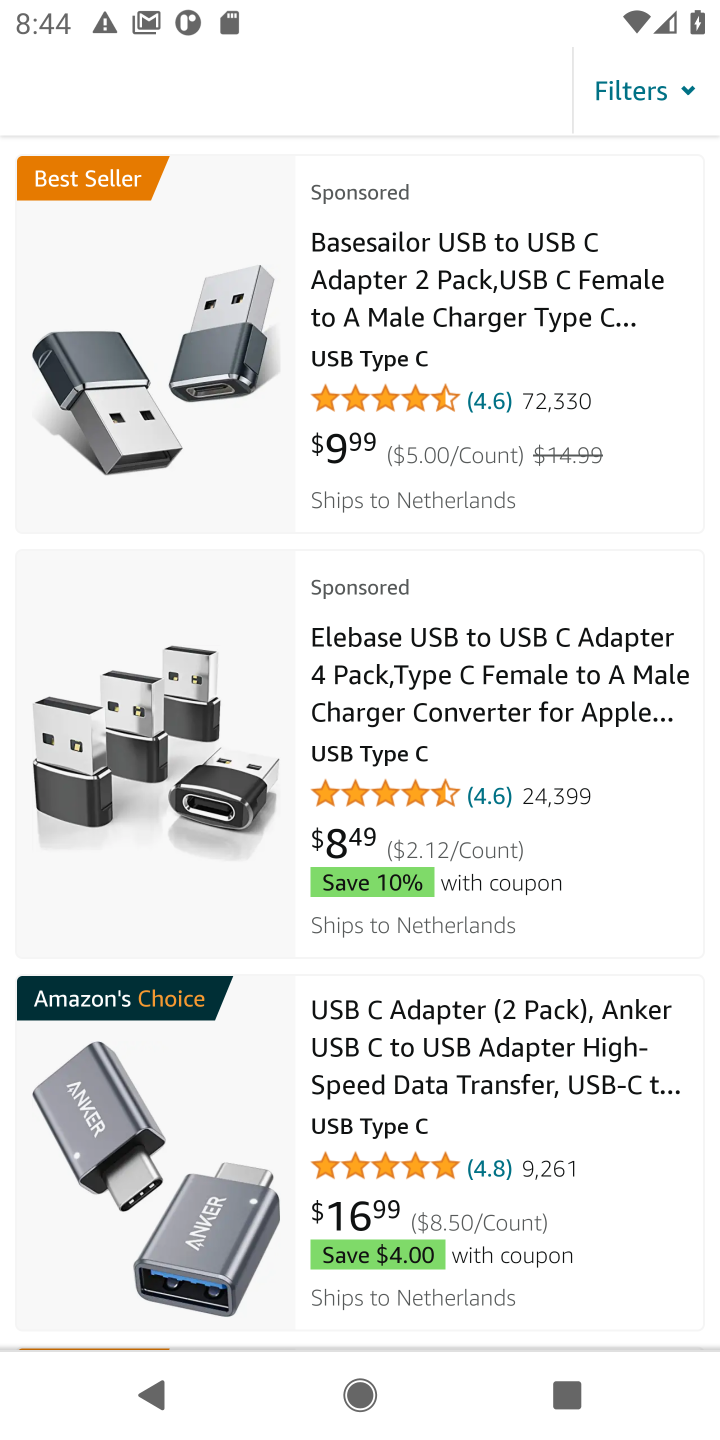
Step 24: click (448, 375)
Your task to perform on an android device: Clear the cart on amazon.com. Add "usb-c to usb-a" to the cart on amazon.com, then select checkout. Image 25: 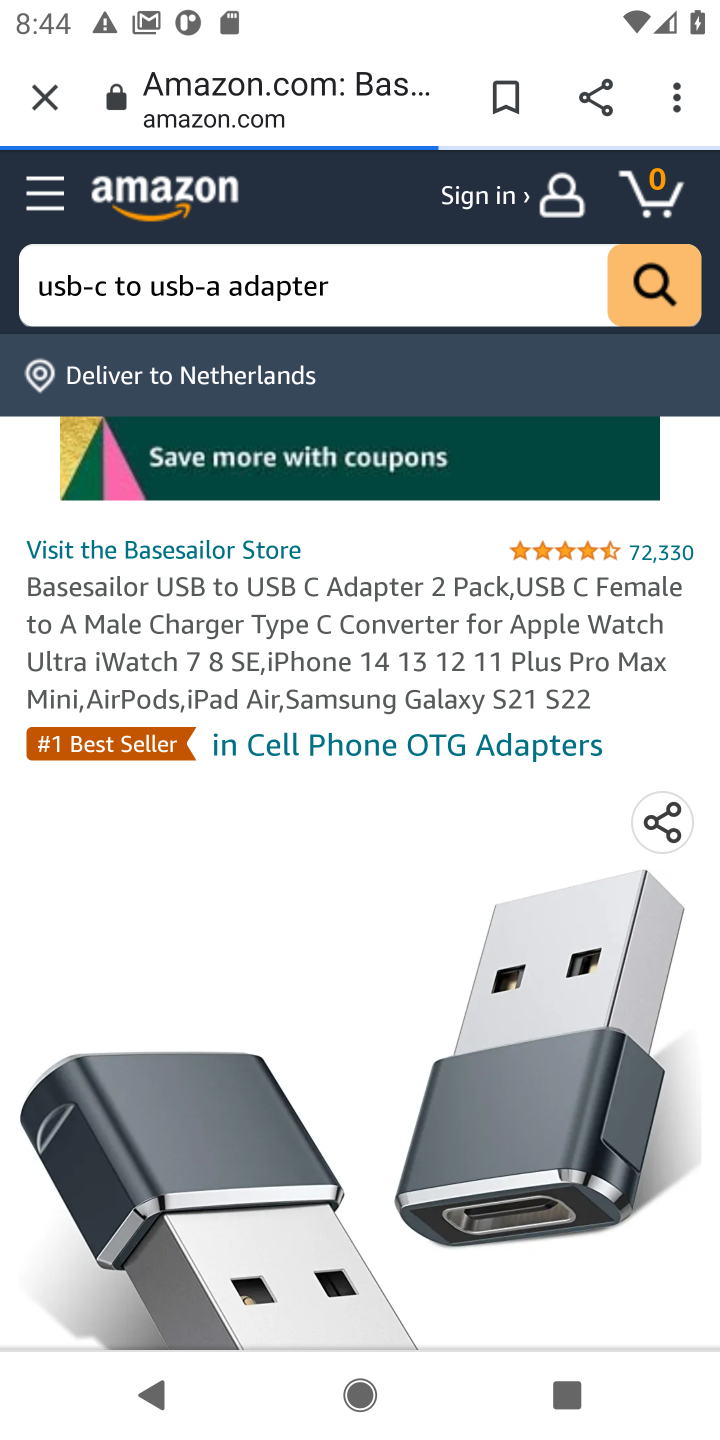
Step 25: drag from (434, 773) to (434, 428)
Your task to perform on an android device: Clear the cart on amazon.com. Add "usb-c to usb-a" to the cart on amazon.com, then select checkout. Image 26: 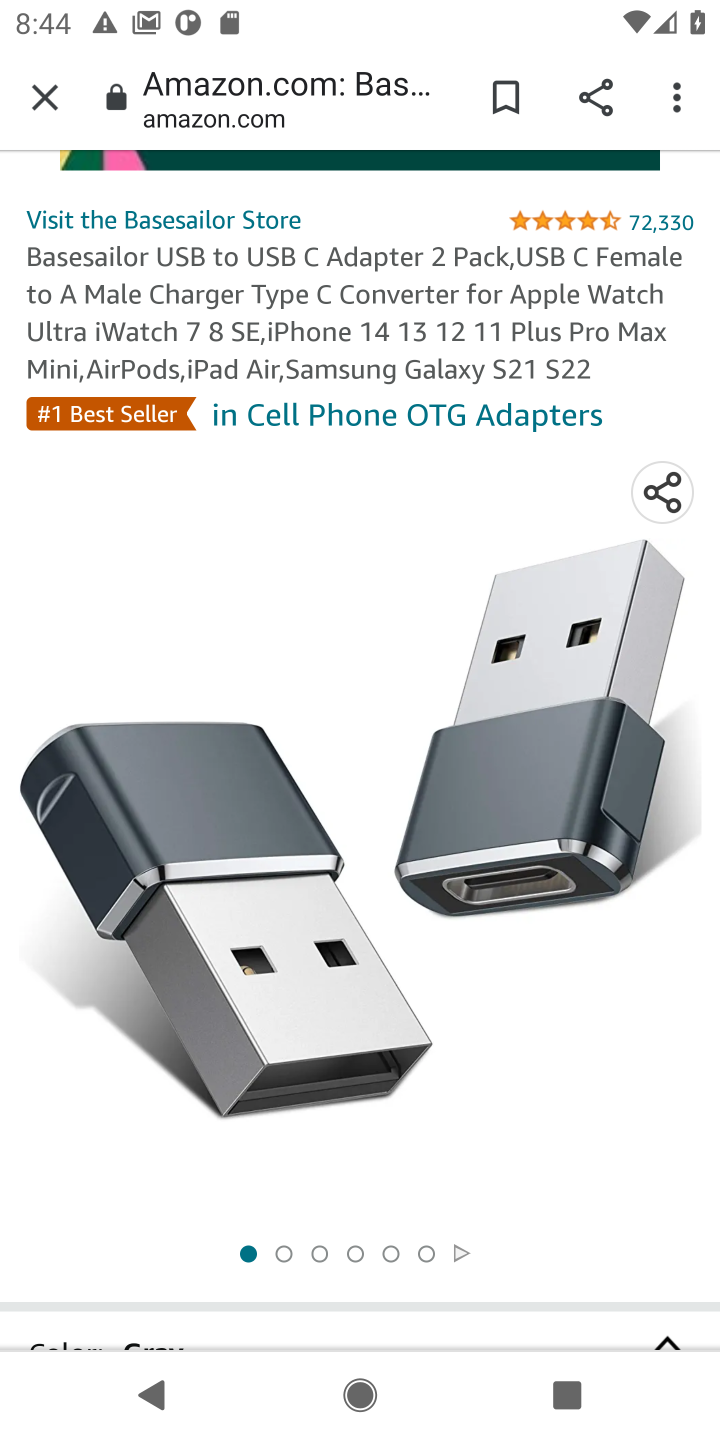
Step 26: drag from (487, 1100) to (440, 551)
Your task to perform on an android device: Clear the cart on amazon.com. Add "usb-c to usb-a" to the cart on amazon.com, then select checkout. Image 27: 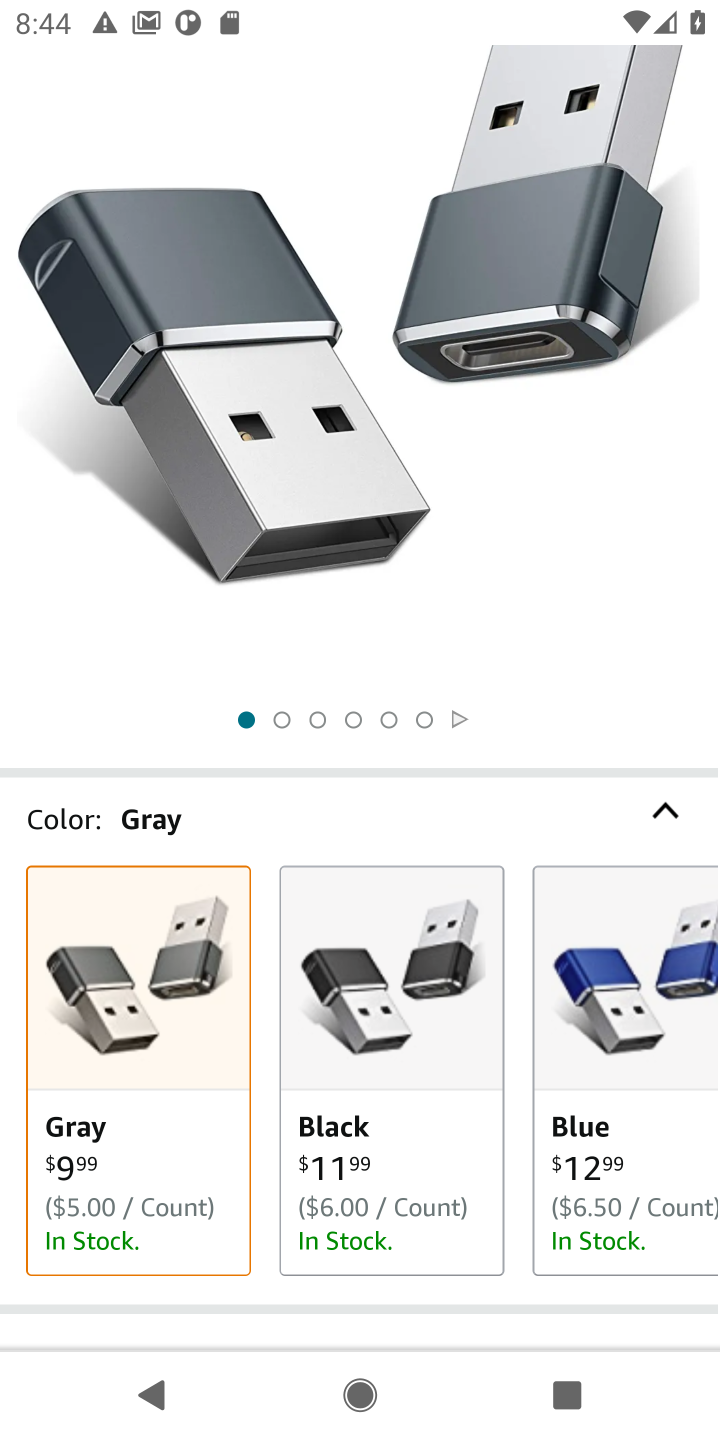
Step 27: drag from (463, 1114) to (427, 646)
Your task to perform on an android device: Clear the cart on amazon.com. Add "usb-c to usb-a" to the cart on amazon.com, then select checkout. Image 28: 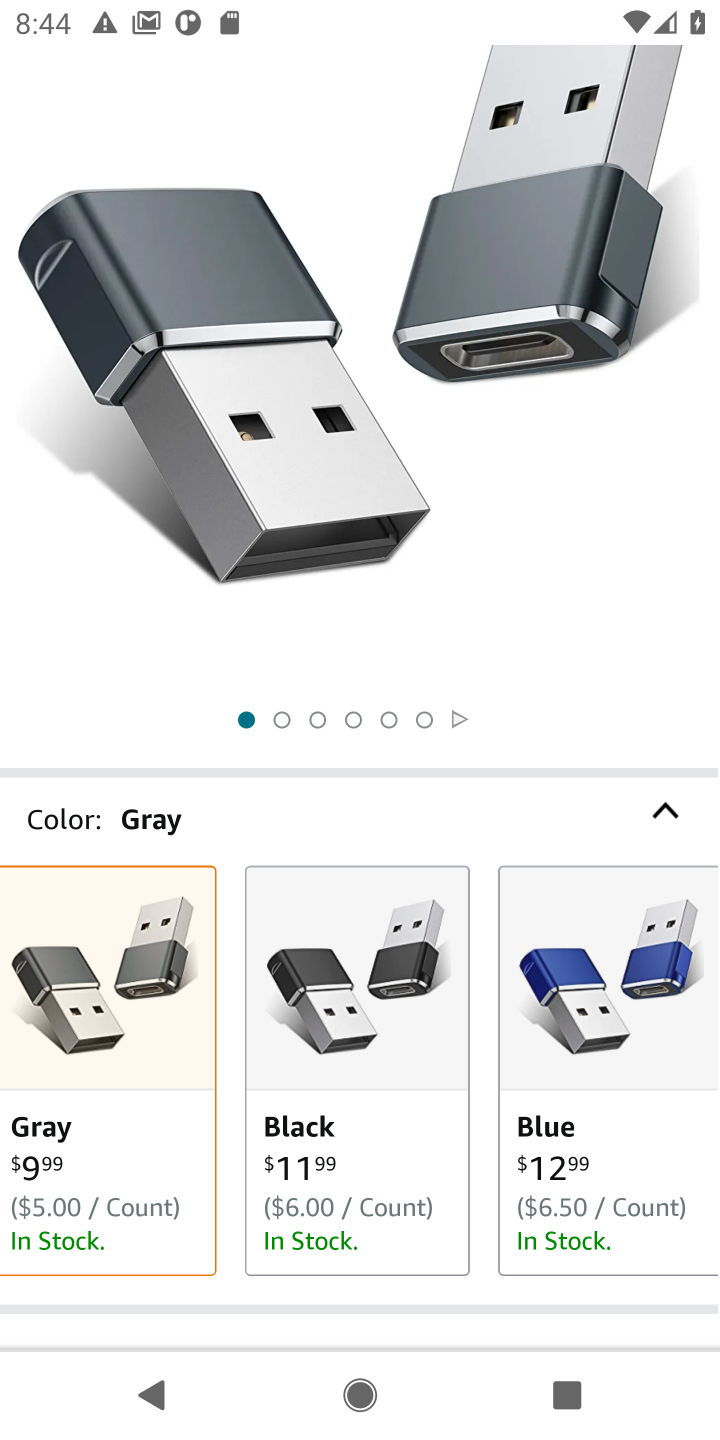
Step 28: drag from (482, 1144) to (440, 579)
Your task to perform on an android device: Clear the cart on amazon.com. Add "usb-c to usb-a" to the cart on amazon.com, then select checkout. Image 29: 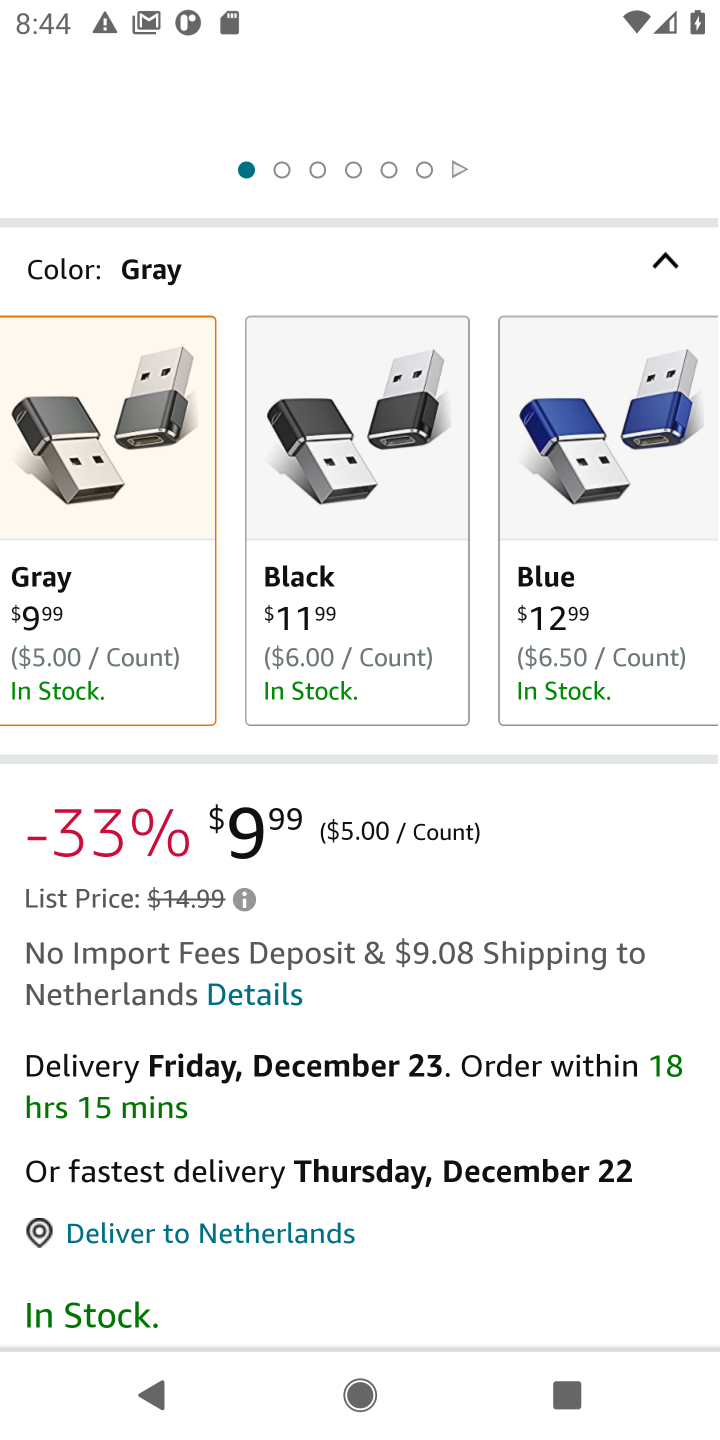
Step 29: drag from (433, 1143) to (415, 572)
Your task to perform on an android device: Clear the cart on amazon.com. Add "usb-c to usb-a" to the cart on amazon.com, then select checkout. Image 30: 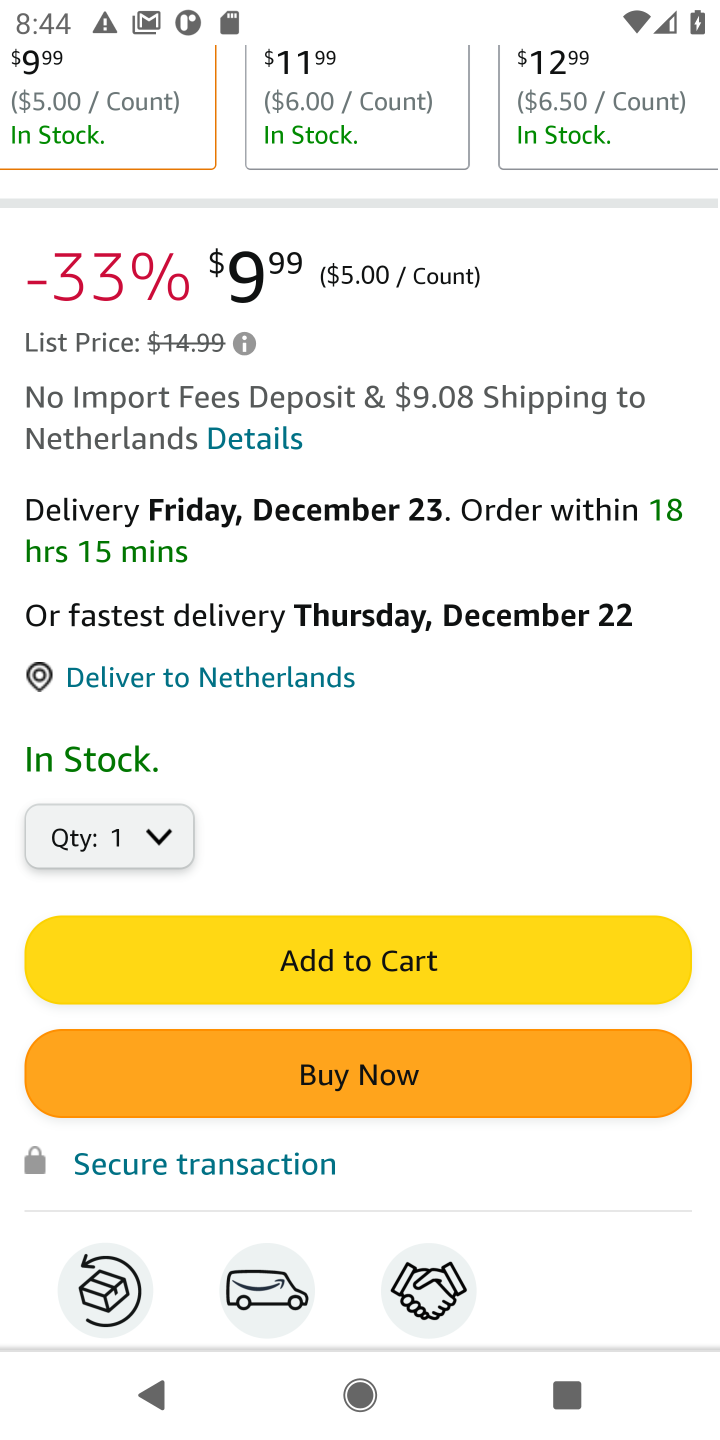
Step 30: click (384, 957)
Your task to perform on an android device: Clear the cart on amazon.com. Add "usb-c to usb-a" to the cart on amazon.com, then select checkout. Image 31: 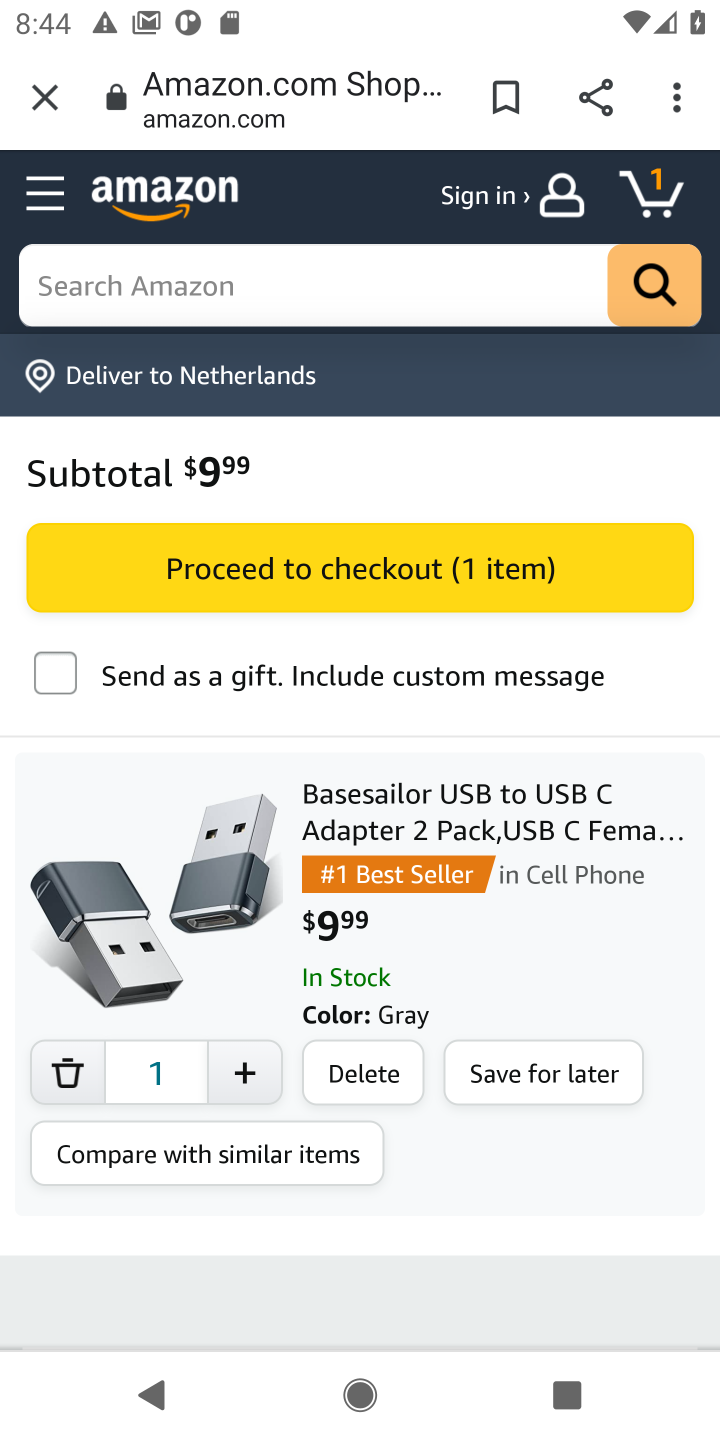
Step 31: click (293, 579)
Your task to perform on an android device: Clear the cart on amazon.com. Add "usb-c to usb-a" to the cart on amazon.com, then select checkout. Image 32: 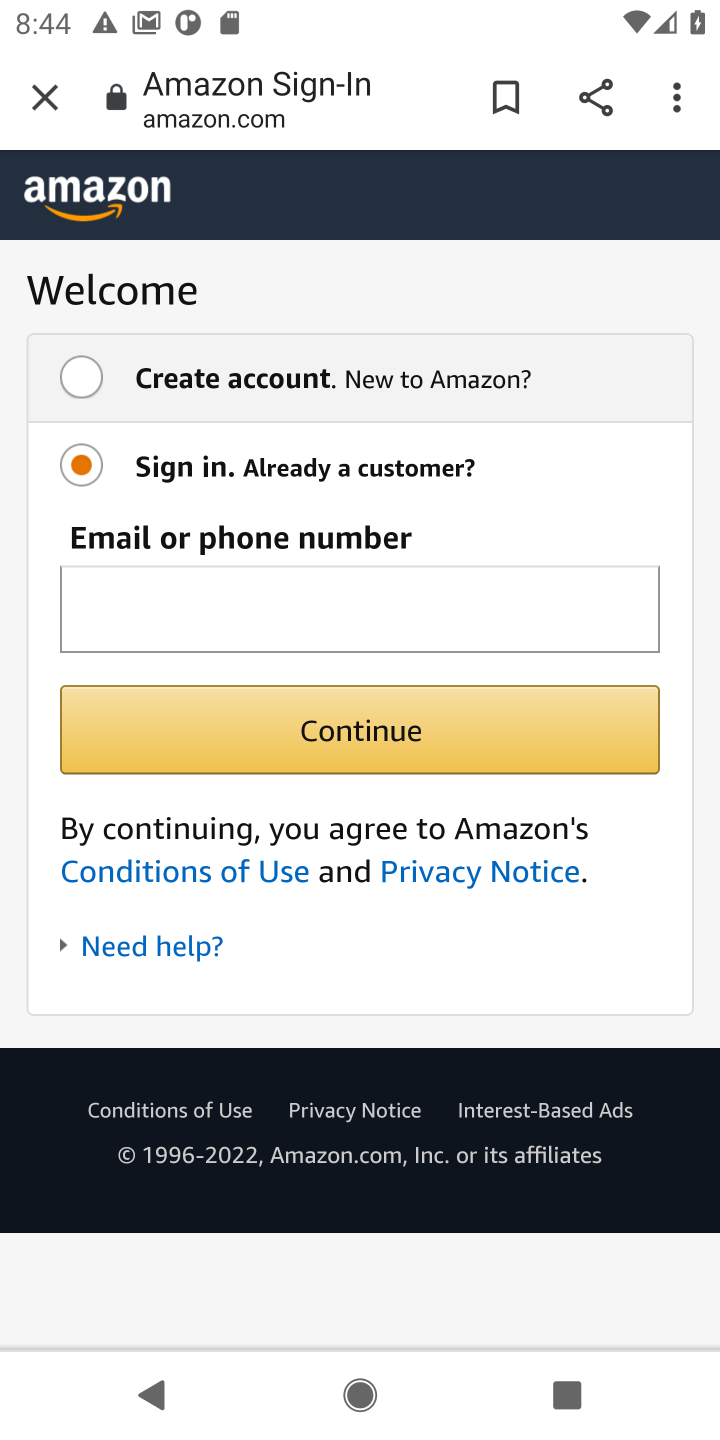
Step 32: task complete